Your task to perform on an android device: Search for macbook pro 15 inch on ebay, select the first entry, and add it to the cart. Image 0: 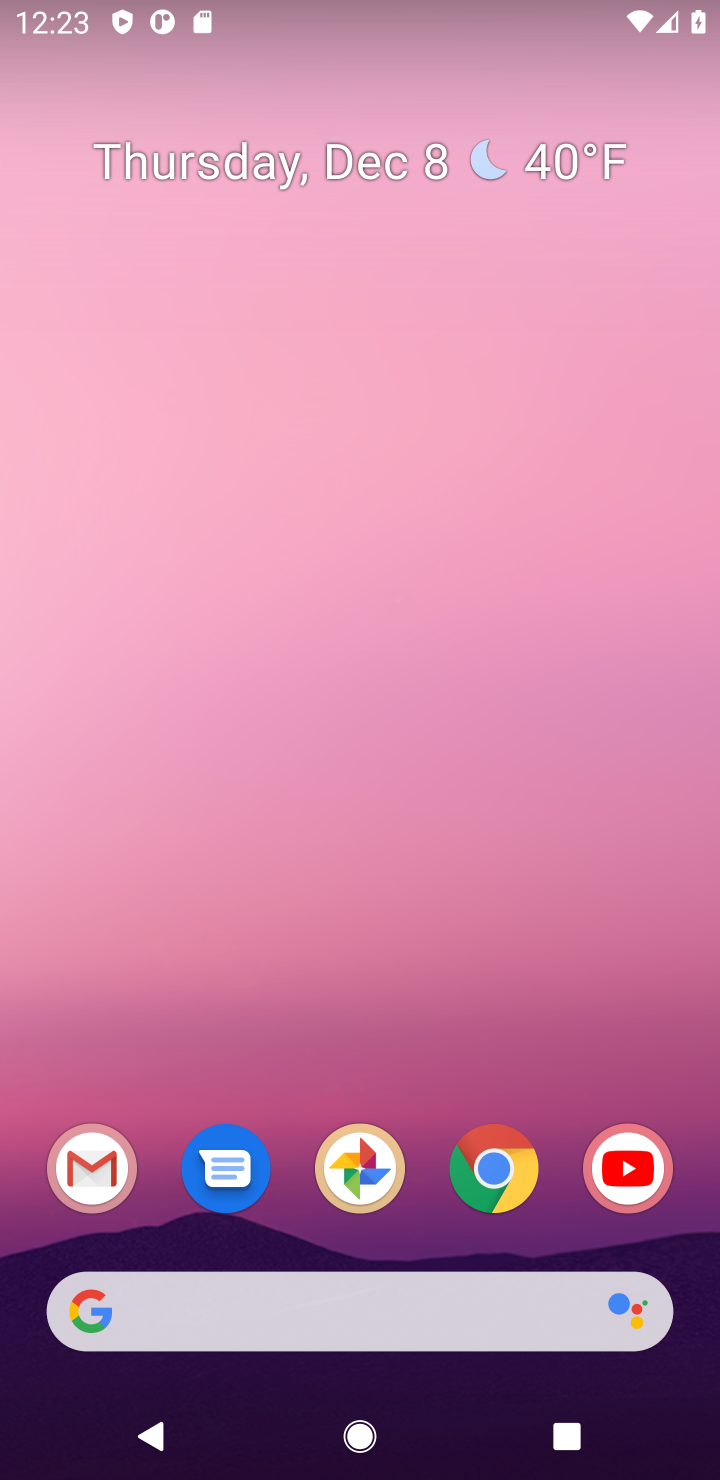
Step 0: drag from (362, 1080) to (372, 141)
Your task to perform on an android device: Search for macbook pro 15 inch on ebay, select the first entry, and add it to the cart. Image 1: 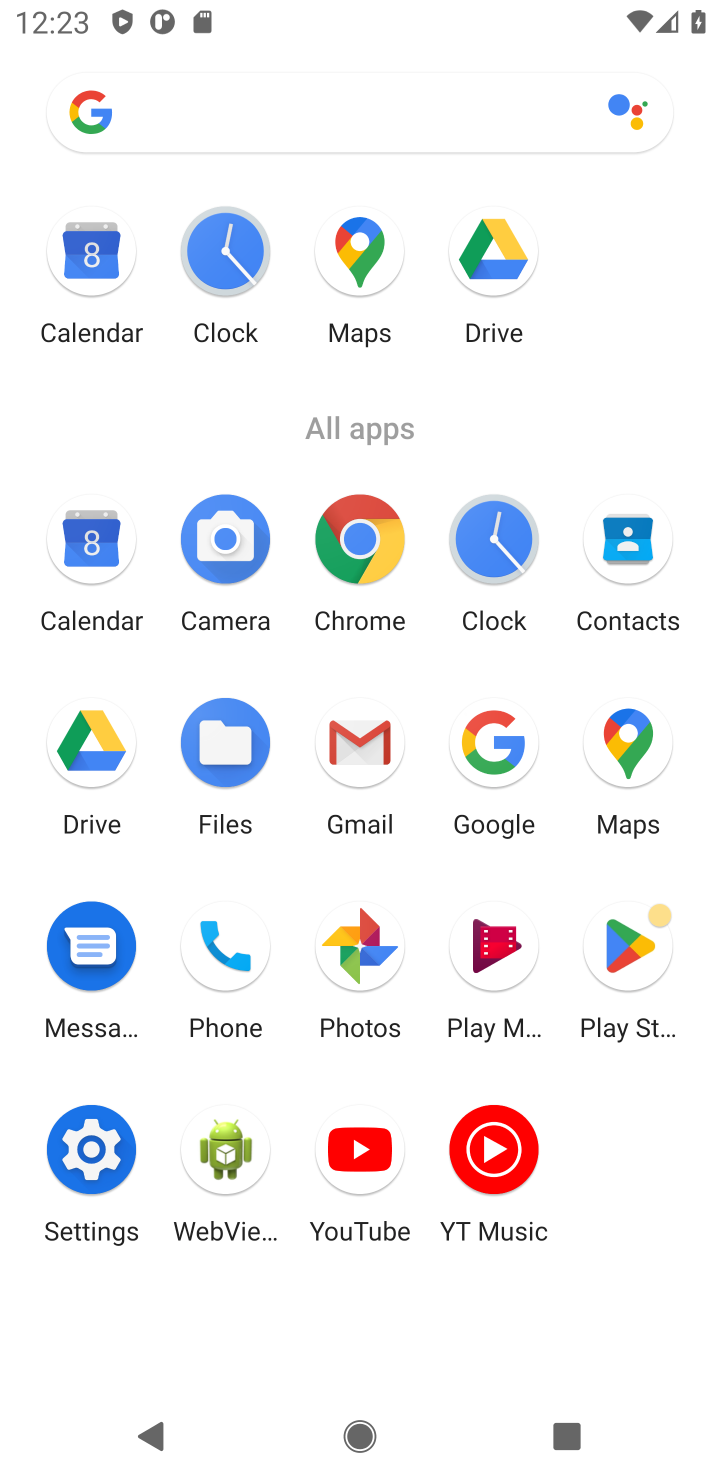
Step 1: click (508, 745)
Your task to perform on an android device: Search for macbook pro 15 inch on ebay, select the first entry, and add it to the cart. Image 2: 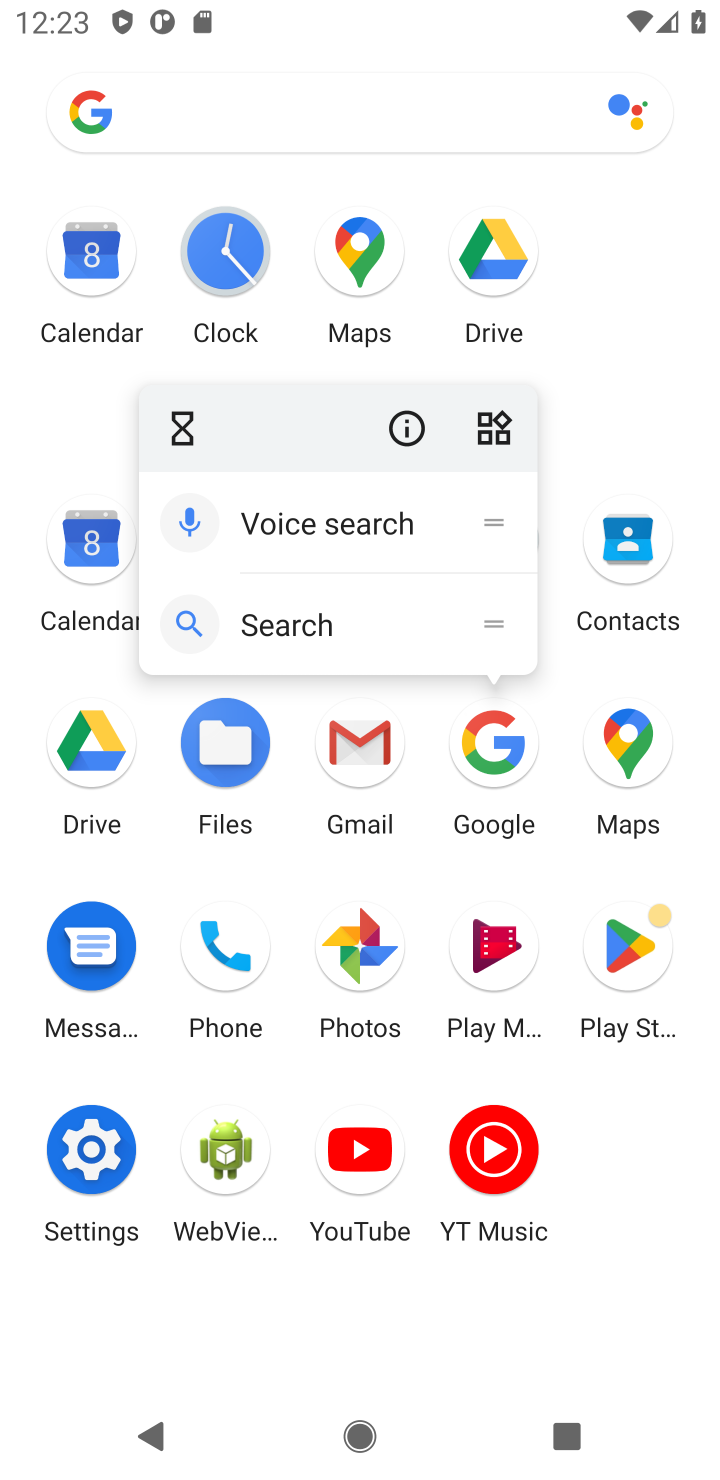
Step 2: click (501, 750)
Your task to perform on an android device: Search for macbook pro 15 inch on ebay, select the first entry, and add it to the cart. Image 3: 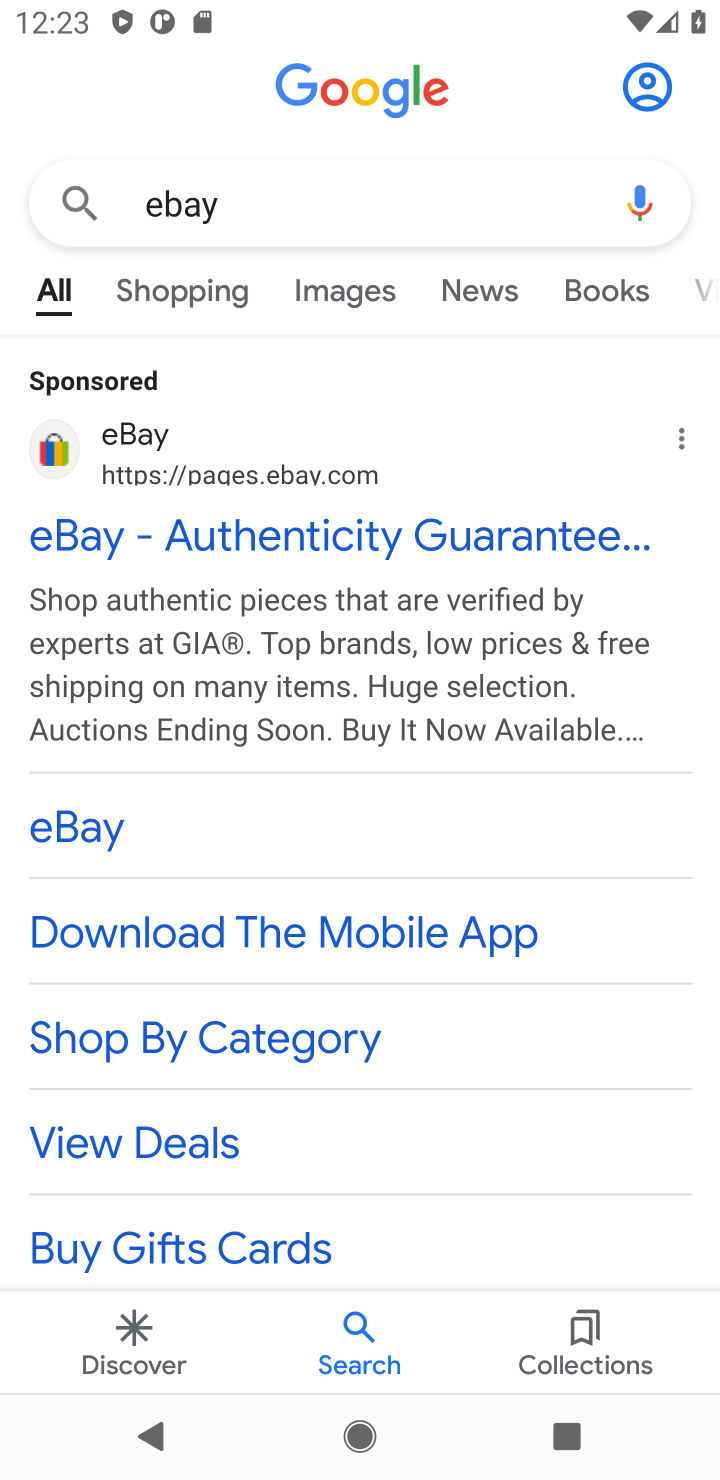
Step 3: click (202, 214)
Your task to perform on an android device: Search for macbook pro 15 inch on ebay, select the first entry, and add it to the cart. Image 4: 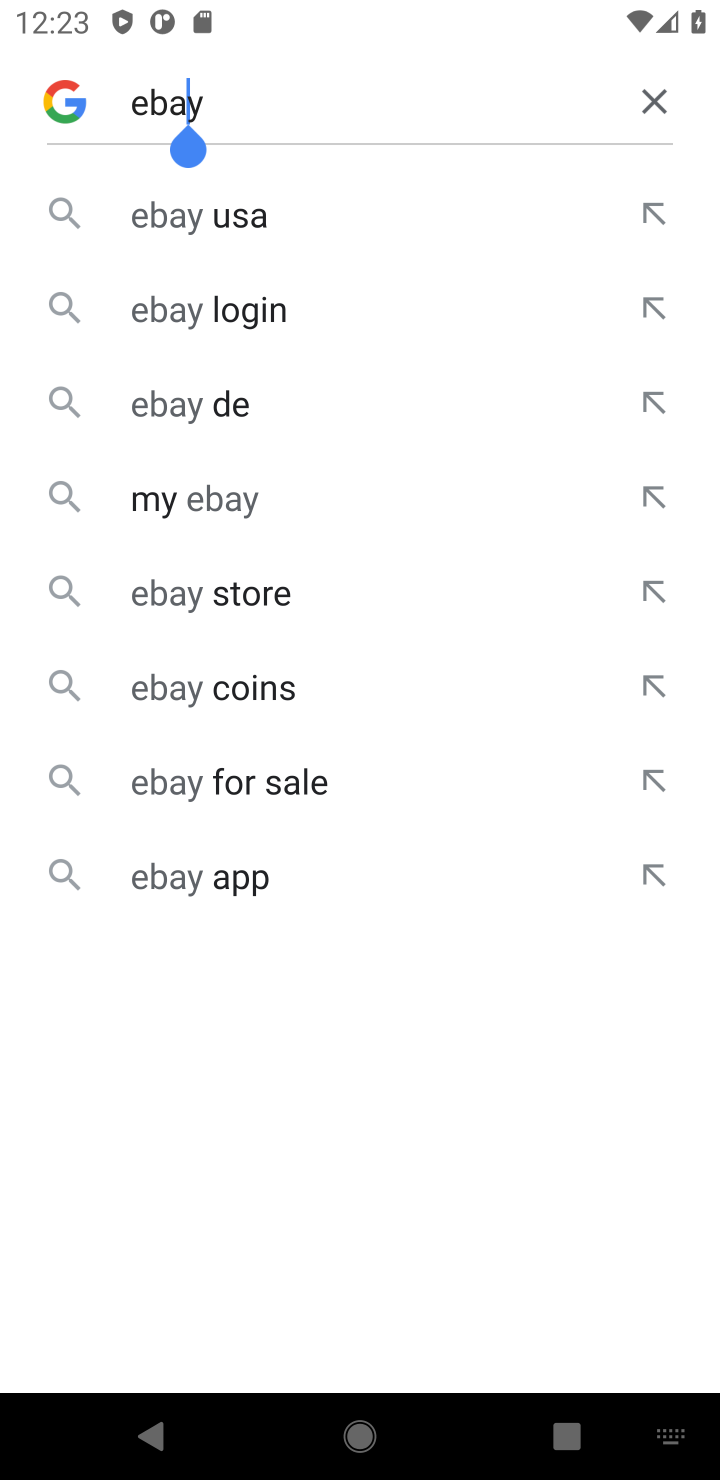
Step 4: click (657, 96)
Your task to perform on an android device: Search for macbook pro 15 inch on ebay, select the first entry, and add it to the cart. Image 5: 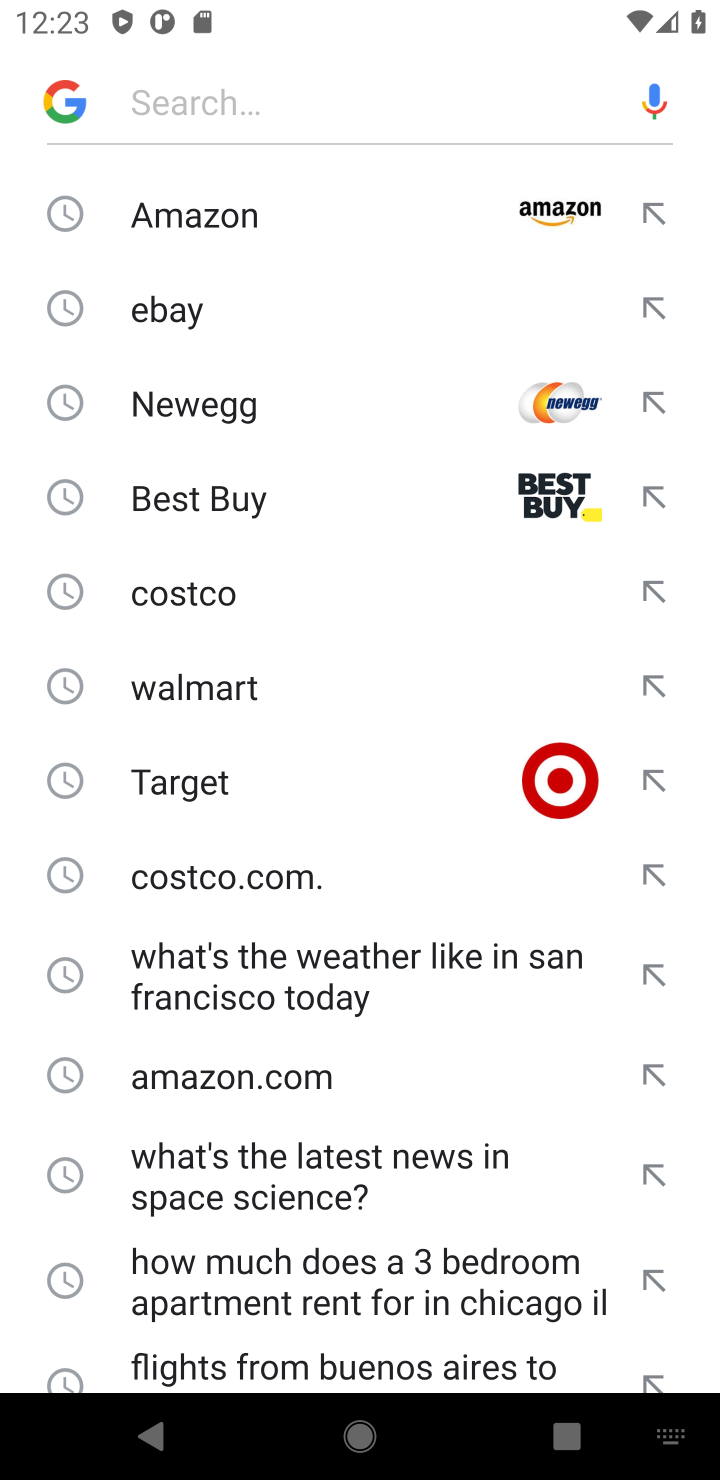
Step 5: click (183, 316)
Your task to perform on an android device: Search for macbook pro 15 inch on ebay, select the first entry, and add it to the cart. Image 6: 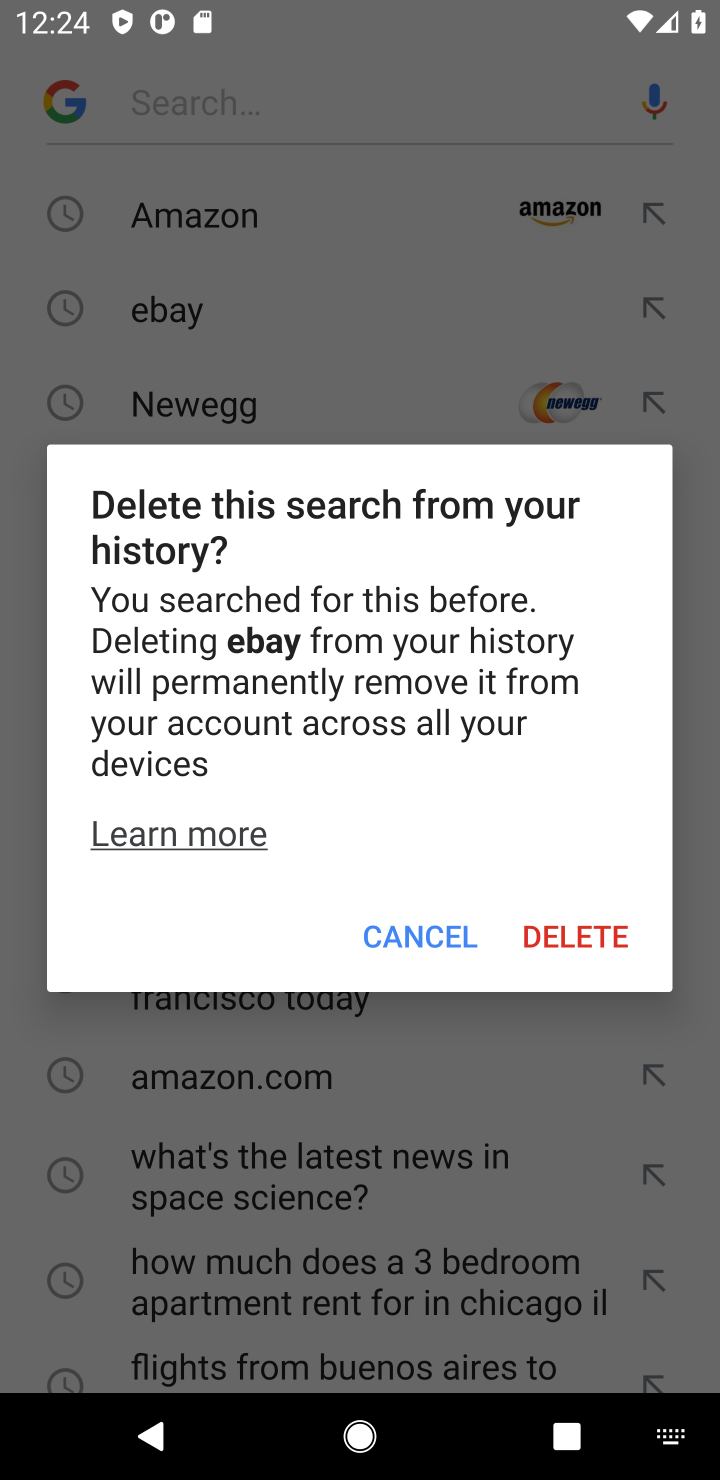
Step 6: click (434, 933)
Your task to perform on an android device: Search for macbook pro 15 inch on ebay, select the first entry, and add it to the cart. Image 7: 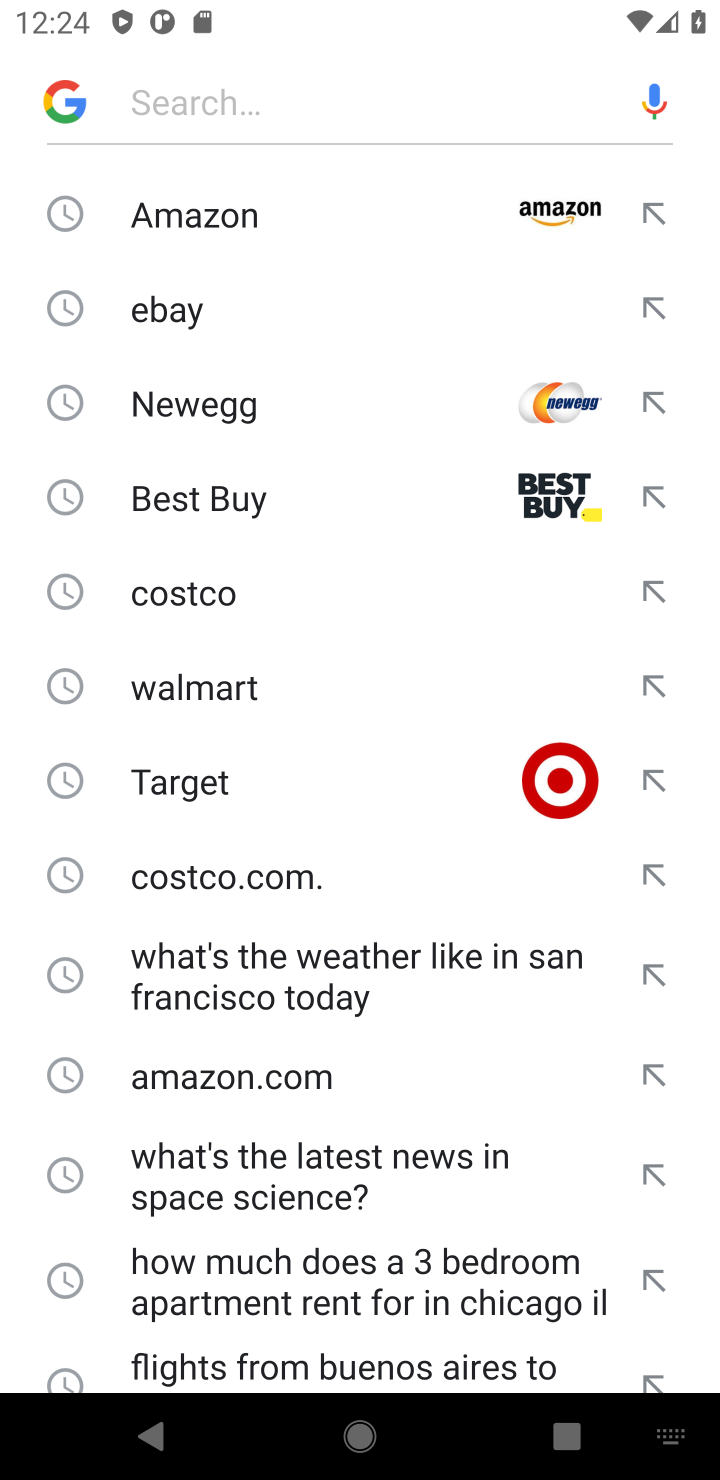
Step 7: click (651, 305)
Your task to perform on an android device: Search for macbook pro 15 inch on ebay, select the first entry, and add it to the cart. Image 8: 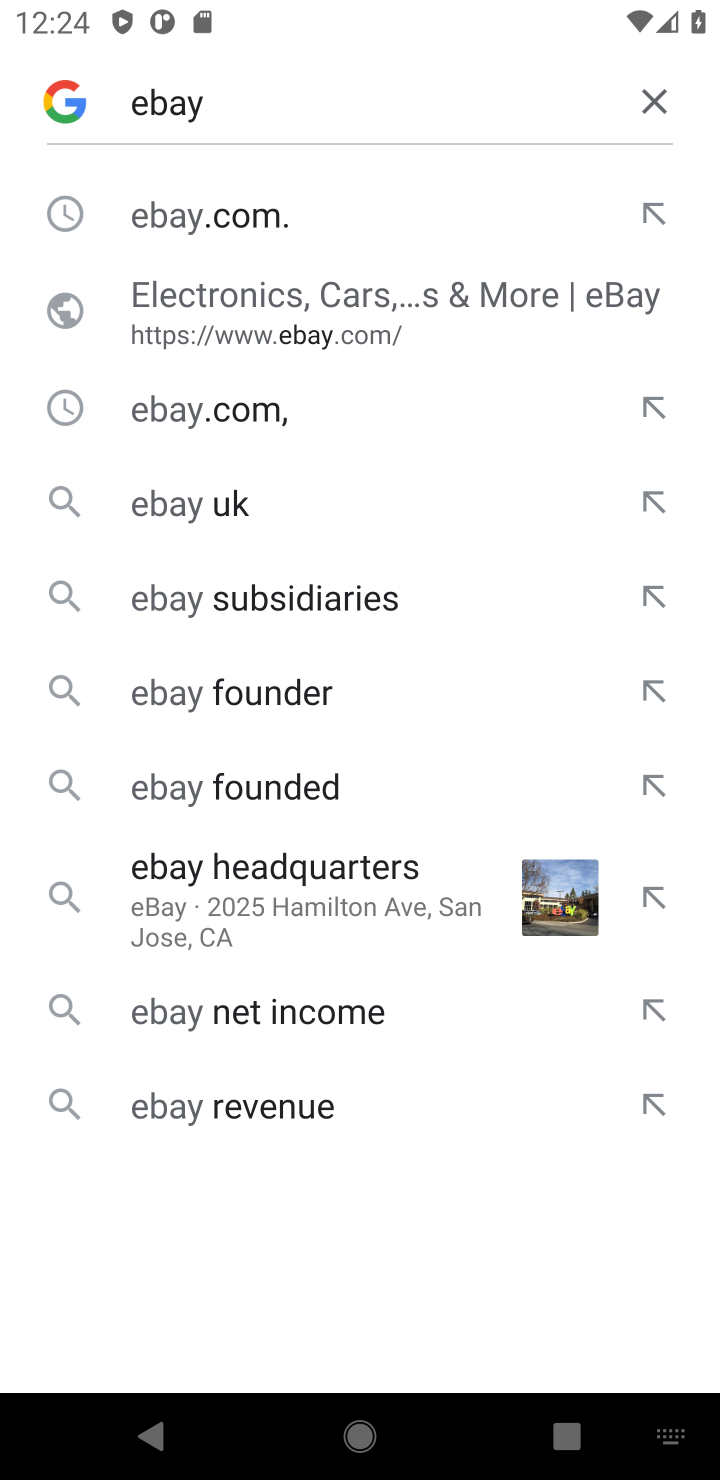
Step 8: click (201, 204)
Your task to perform on an android device: Search for macbook pro 15 inch on ebay, select the first entry, and add it to the cart. Image 9: 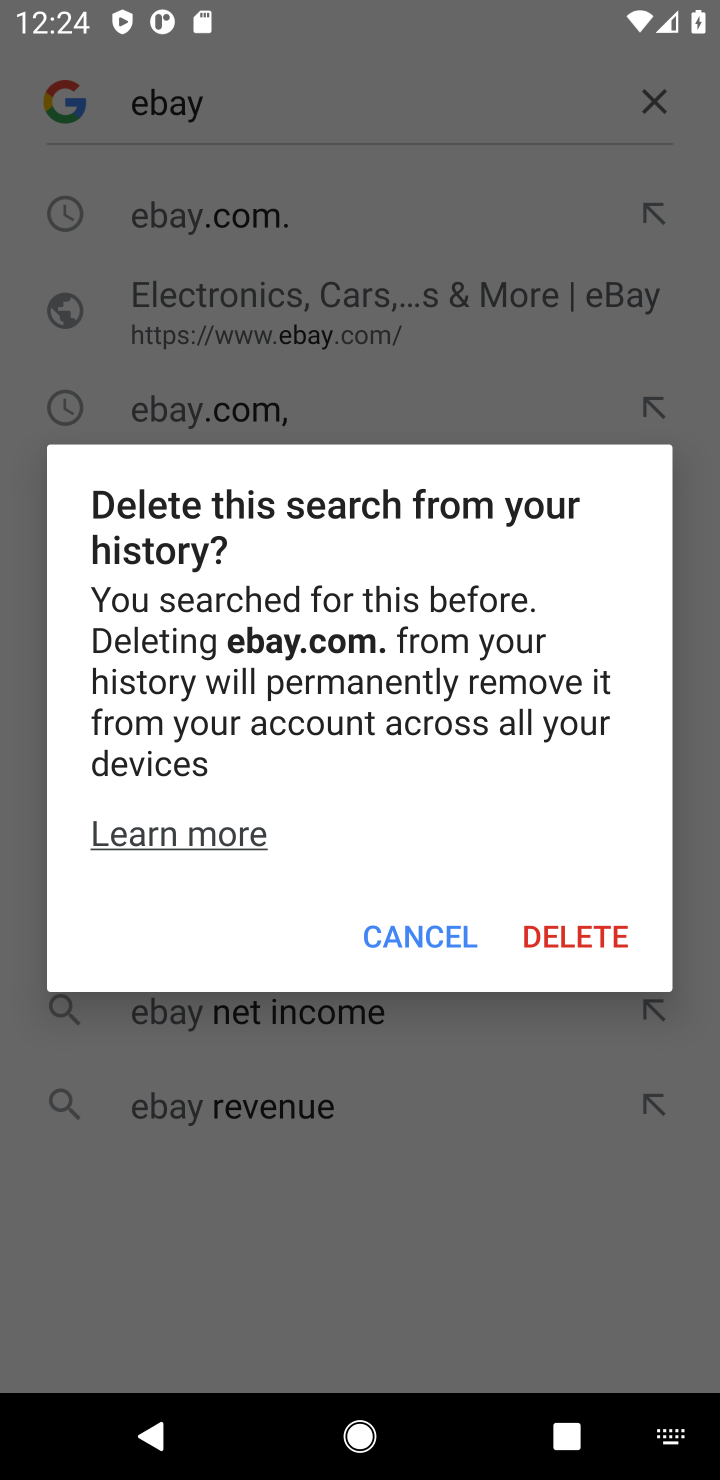
Step 9: click (415, 950)
Your task to perform on an android device: Search for macbook pro 15 inch on ebay, select the first entry, and add it to the cart. Image 10: 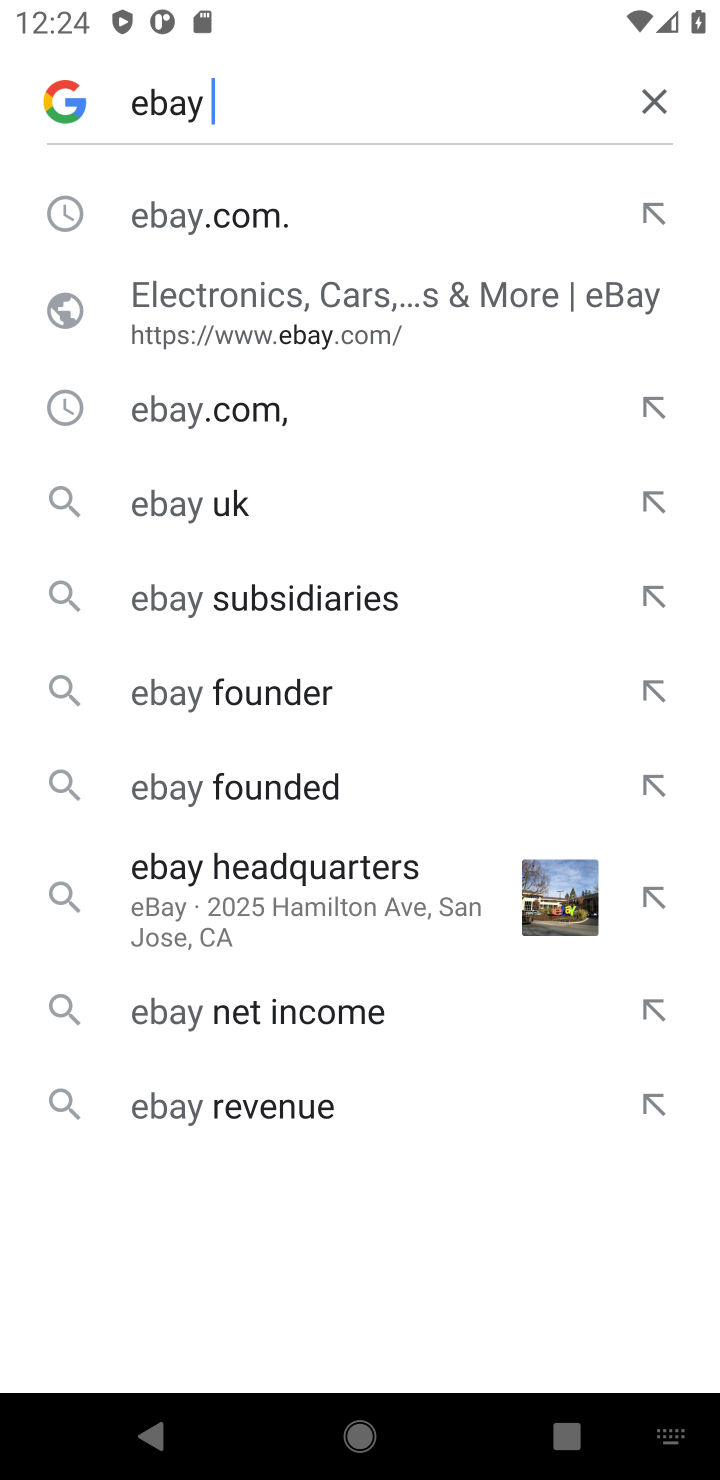
Step 10: click (225, 228)
Your task to perform on an android device: Search for macbook pro 15 inch on ebay, select the first entry, and add it to the cart. Image 11: 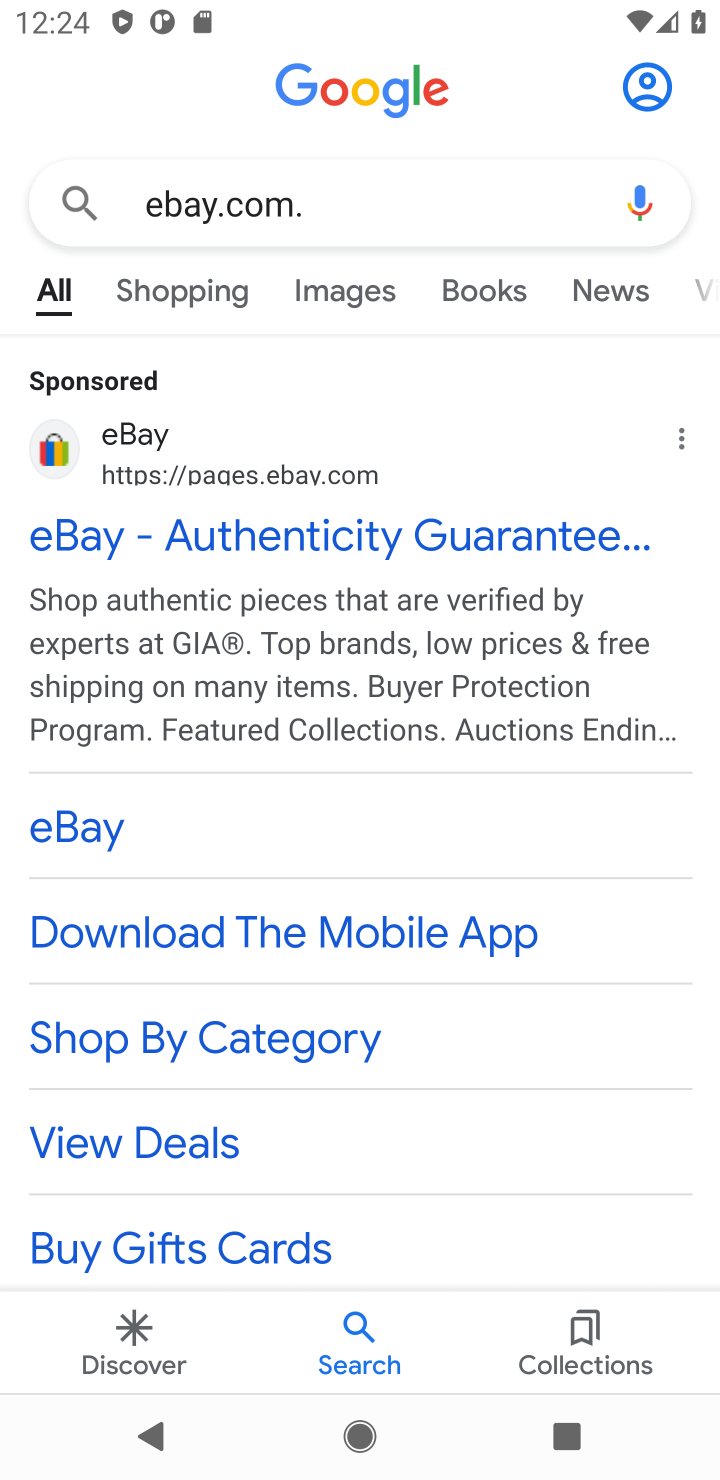
Step 11: click (357, 531)
Your task to perform on an android device: Search for macbook pro 15 inch on ebay, select the first entry, and add it to the cart. Image 12: 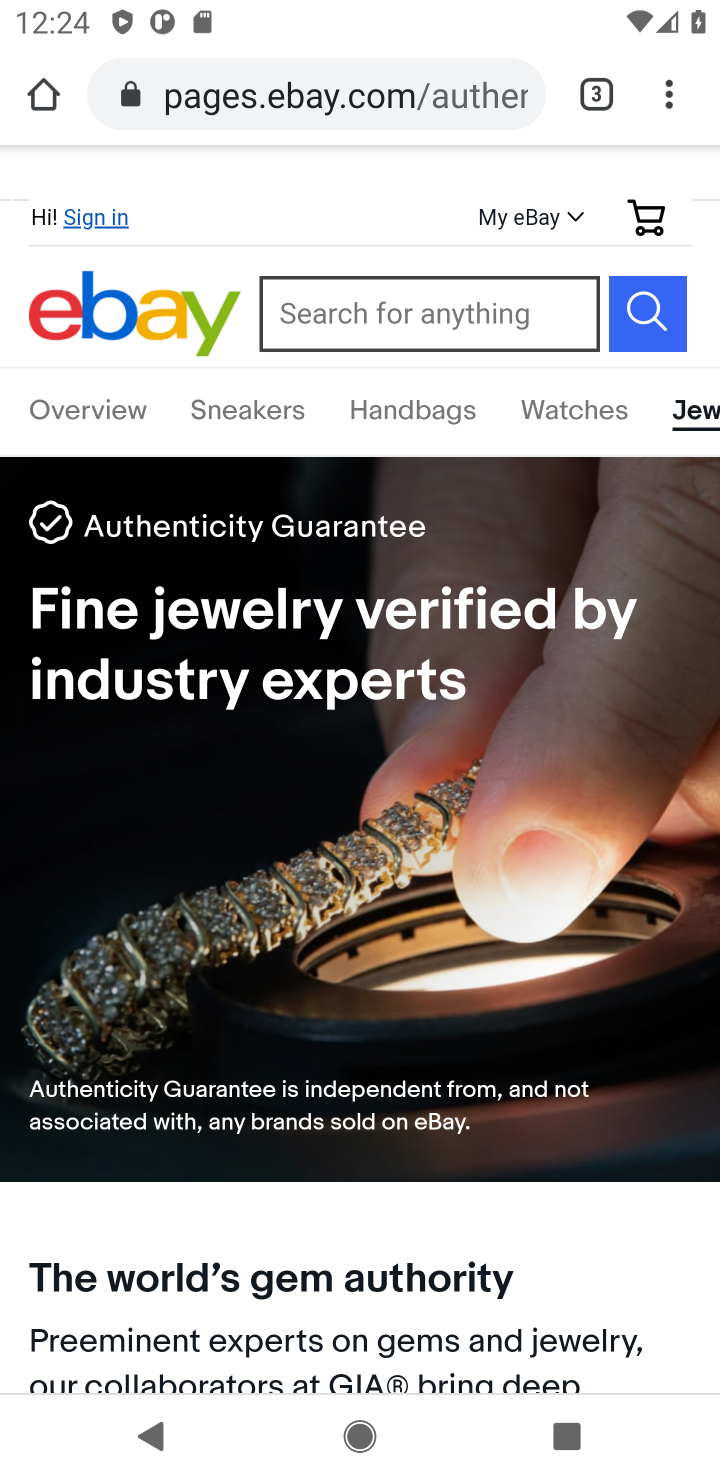
Step 12: click (280, 313)
Your task to perform on an android device: Search for macbook pro 15 inch on ebay, select the first entry, and add it to the cart. Image 13: 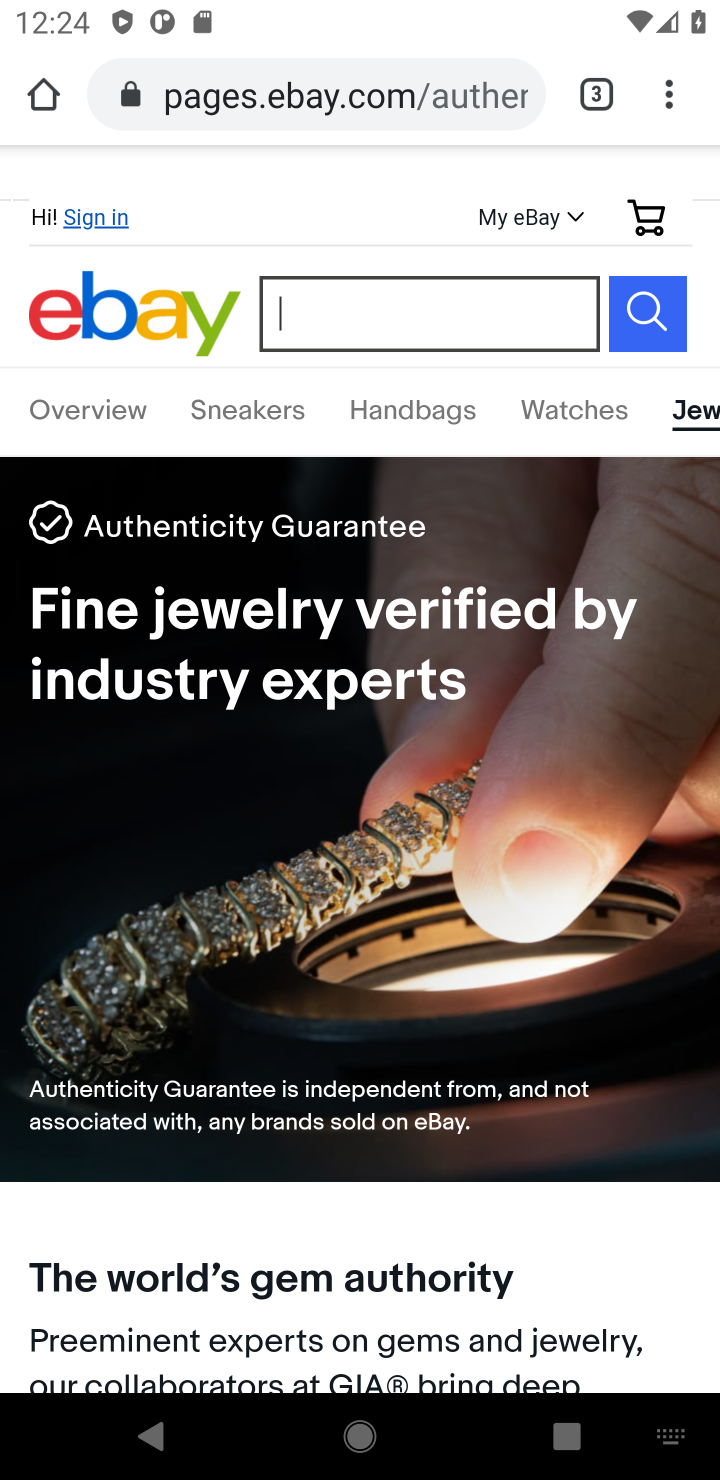
Step 13: type "macbook pro 15"
Your task to perform on an android device: Search for macbook pro 15 inch on ebay, select the first entry, and add it to the cart. Image 14: 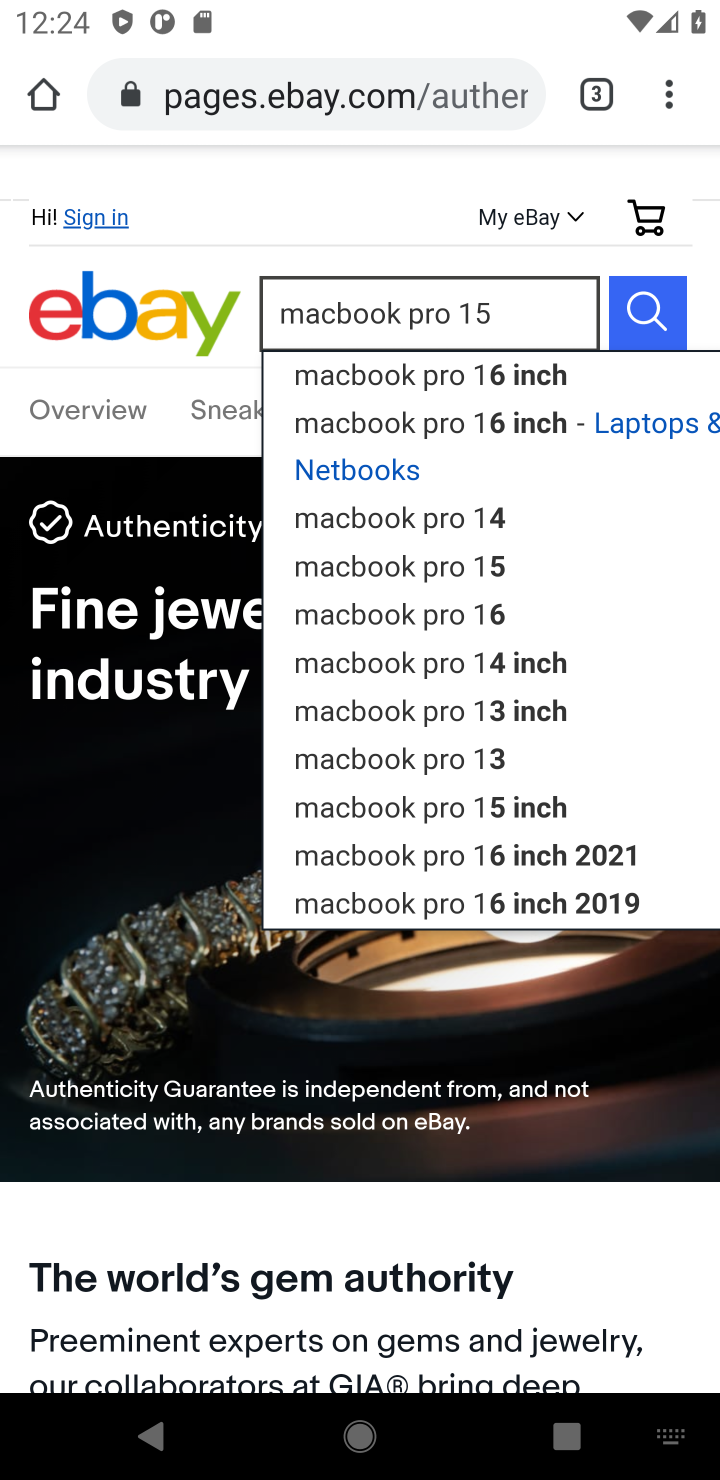
Step 14: click (389, 562)
Your task to perform on an android device: Search for macbook pro 15 inch on ebay, select the first entry, and add it to the cart. Image 15: 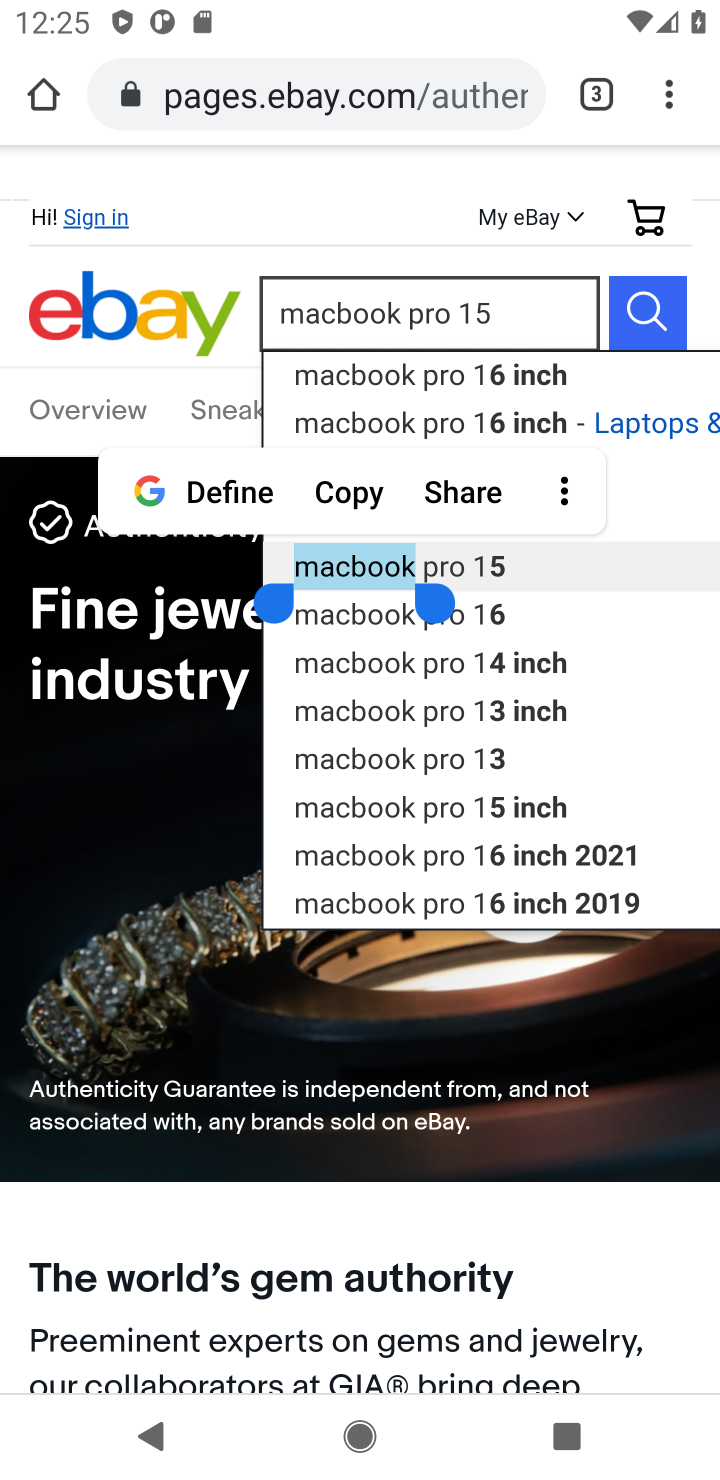
Step 15: click (492, 578)
Your task to perform on an android device: Search for macbook pro 15 inch on ebay, select the first entry, and add it to the cart. Image 16: 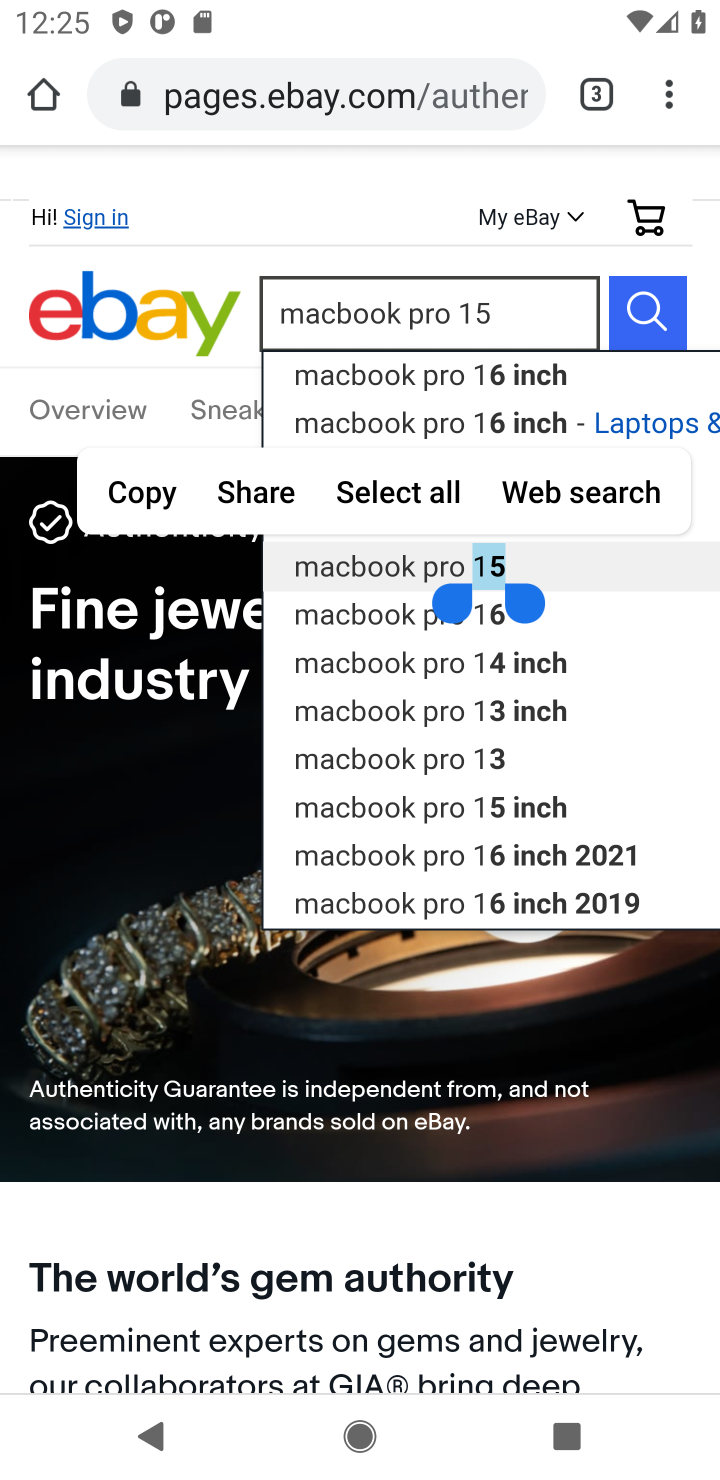
Step 16: click (388, 565)
Your task to perform on an android device: Search for macbook pro 15 inch on ebay, select the first entry, and add it to the cart. Image 17: 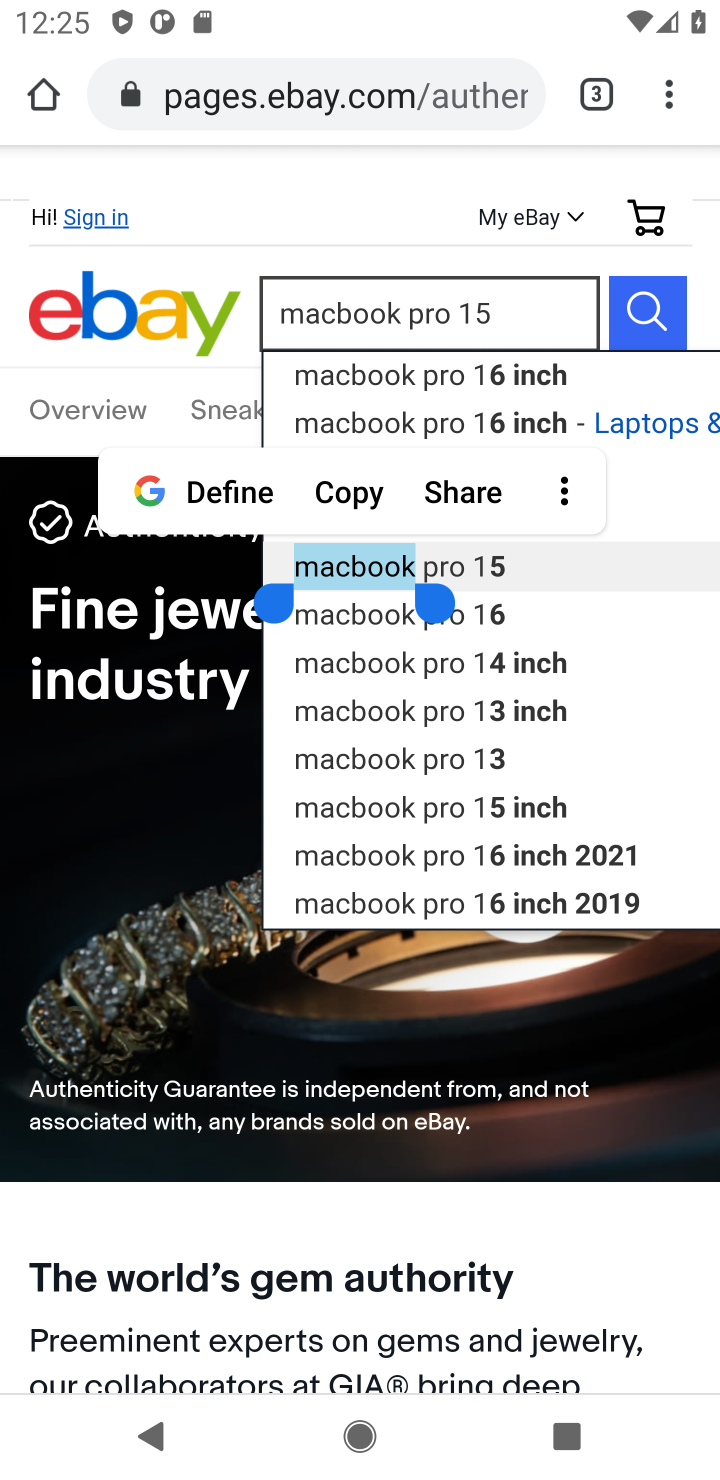
Step 17: click (451, 583)
Your task to perform on an android device: Search for macbook pro 15 inch on ebay, select the first entry, and add it to the cart. Image 18: 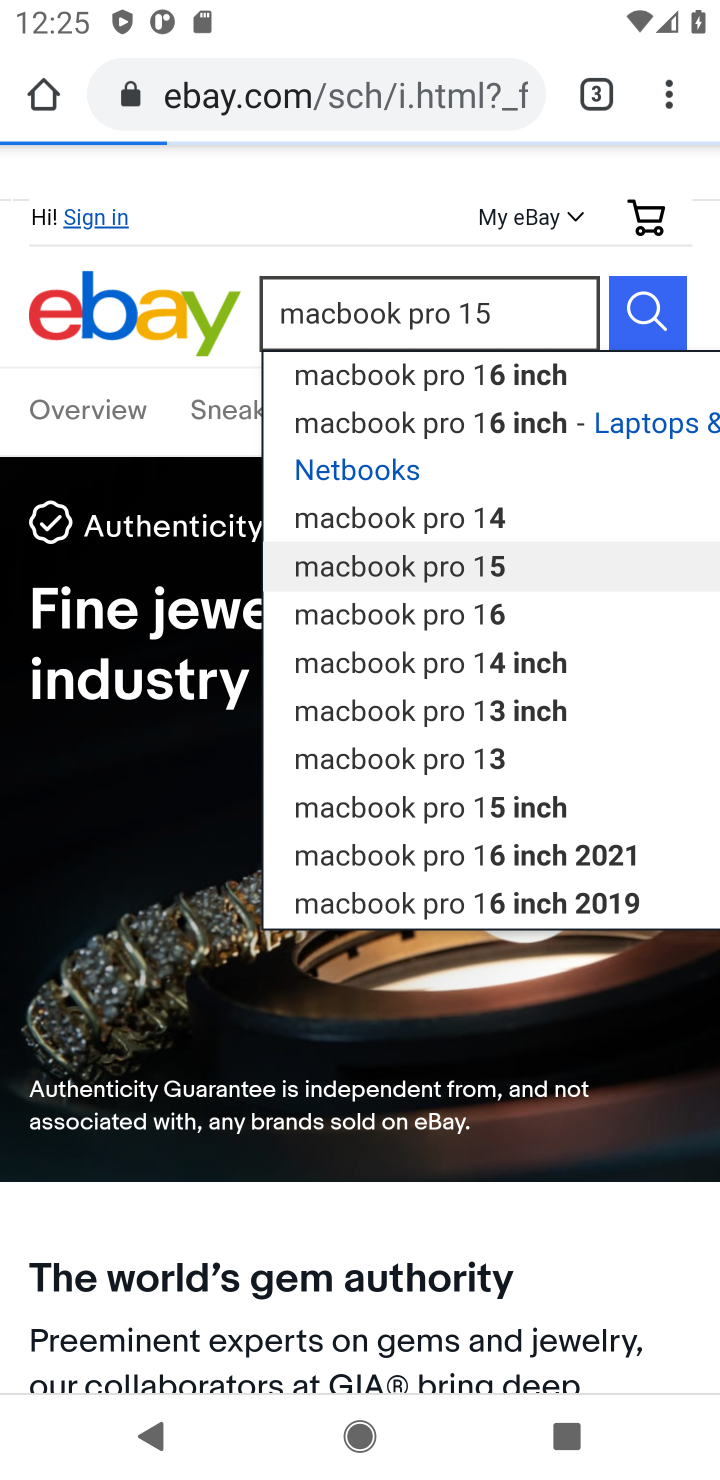
Step 18: click (673, 301)
Your task to perform on an android device: Search for macbook pro 15 inch on ebay, select the first entry, and add it to the cart. Image 19: 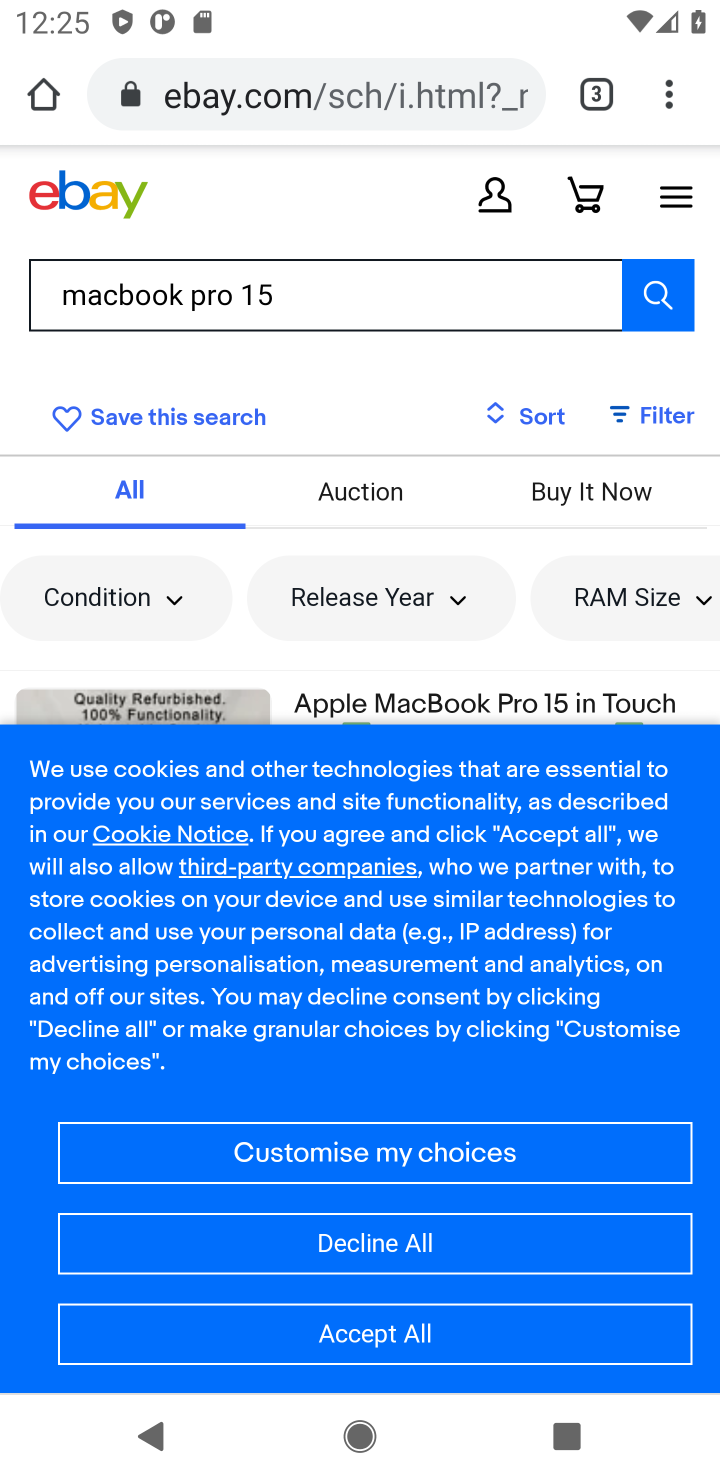
Step 19: click (437, 779)
Your task to perform on an android device: Search for macbook pro 15 inch on ebay, select the first entry, and add it to the cart. Image 20: 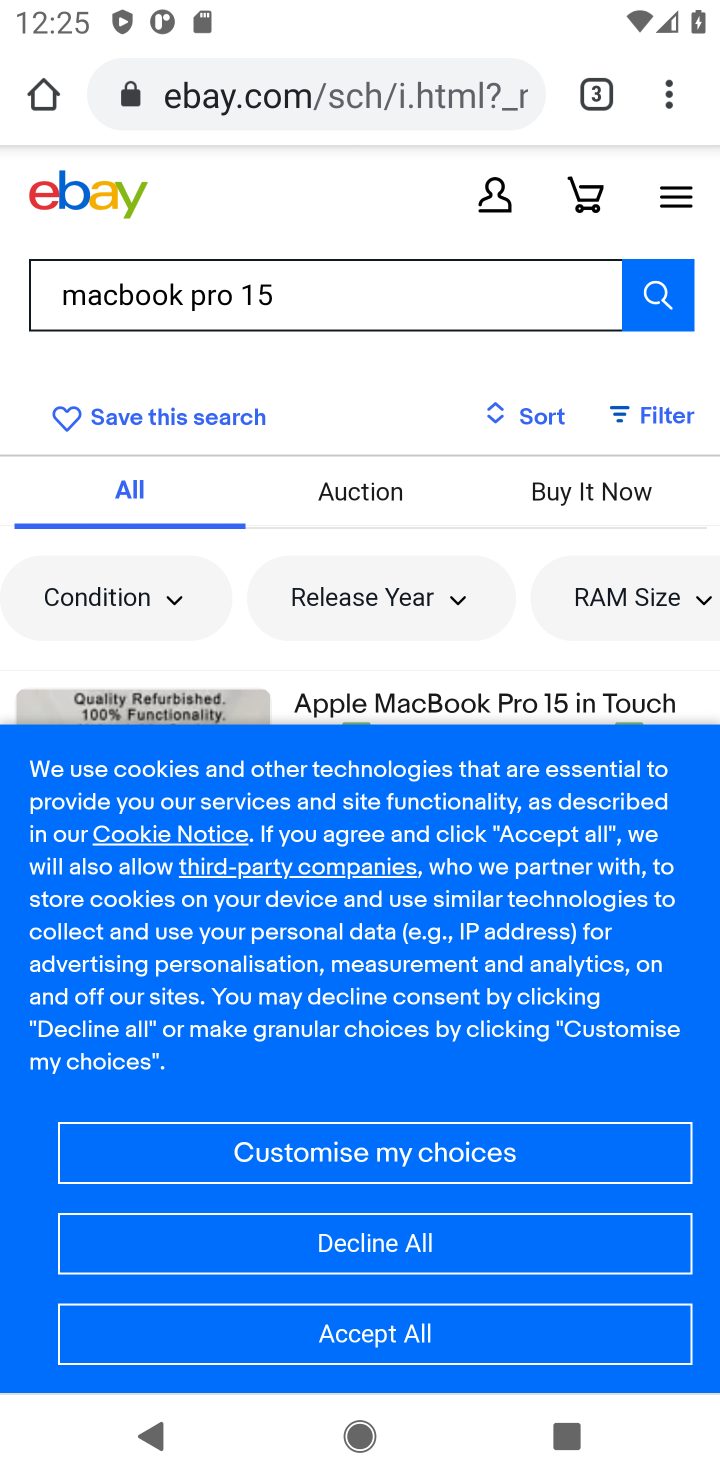
Step 20: click (539, 705)
Your task to perform on an android device: Search for macbook pro 15 inch on ebay, select the first entry, and add it to the cart. Image 21: 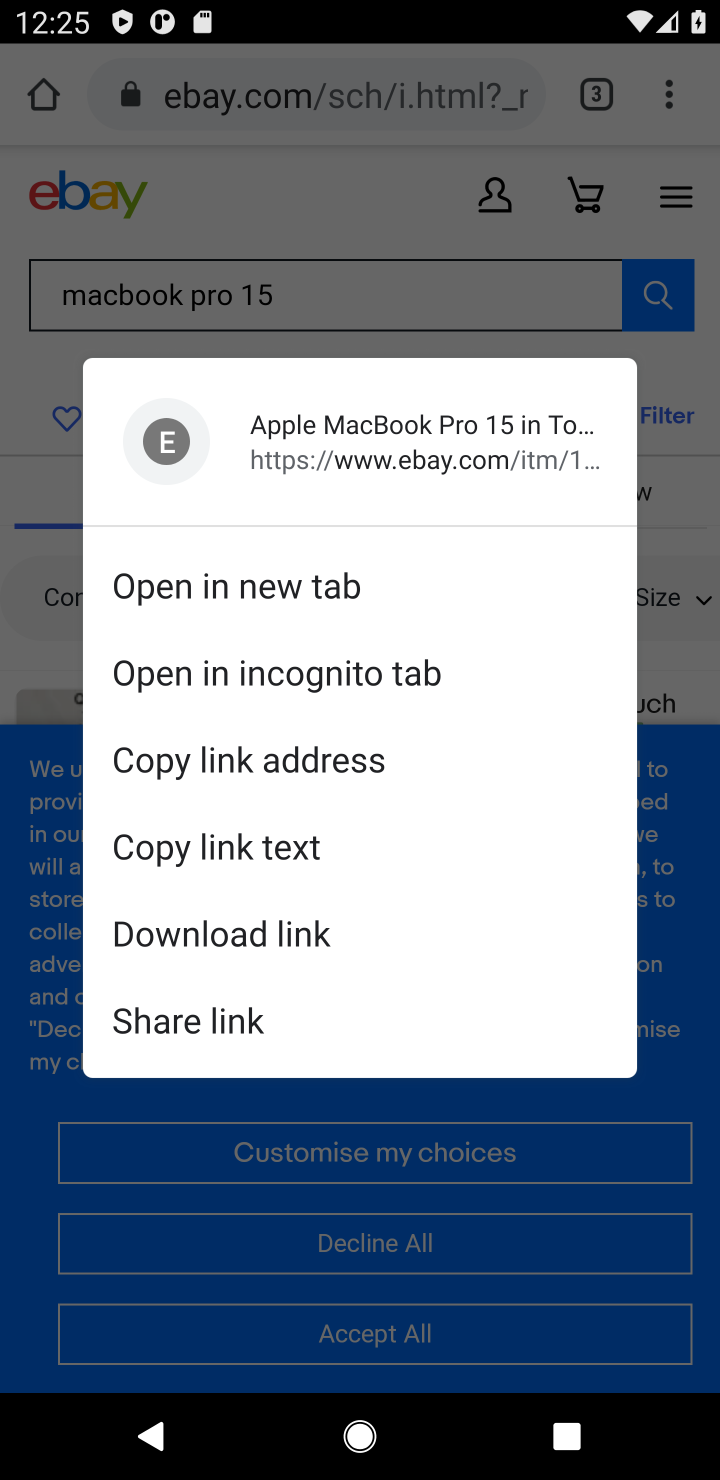
Step 21: click (21, 383)
Your task to perform on an android device: Search for macbook pro 15 inch on ebay, select the first entry, and add it to the cart. Image 22: 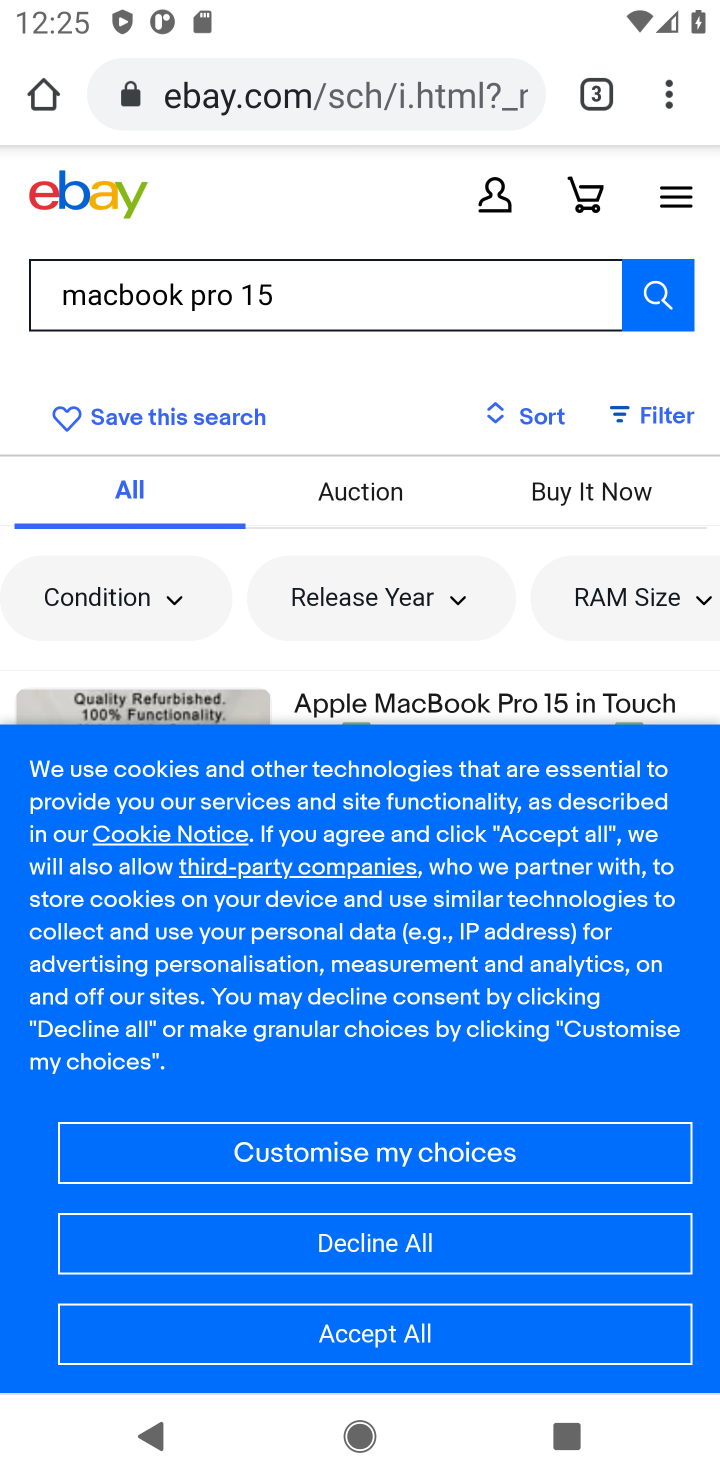
Step 22: click (392, 704)
Your task to perform on an android device: Search for macbook pro 15 inch on ebay, select the first entry, and add it to the cart. Image 23: 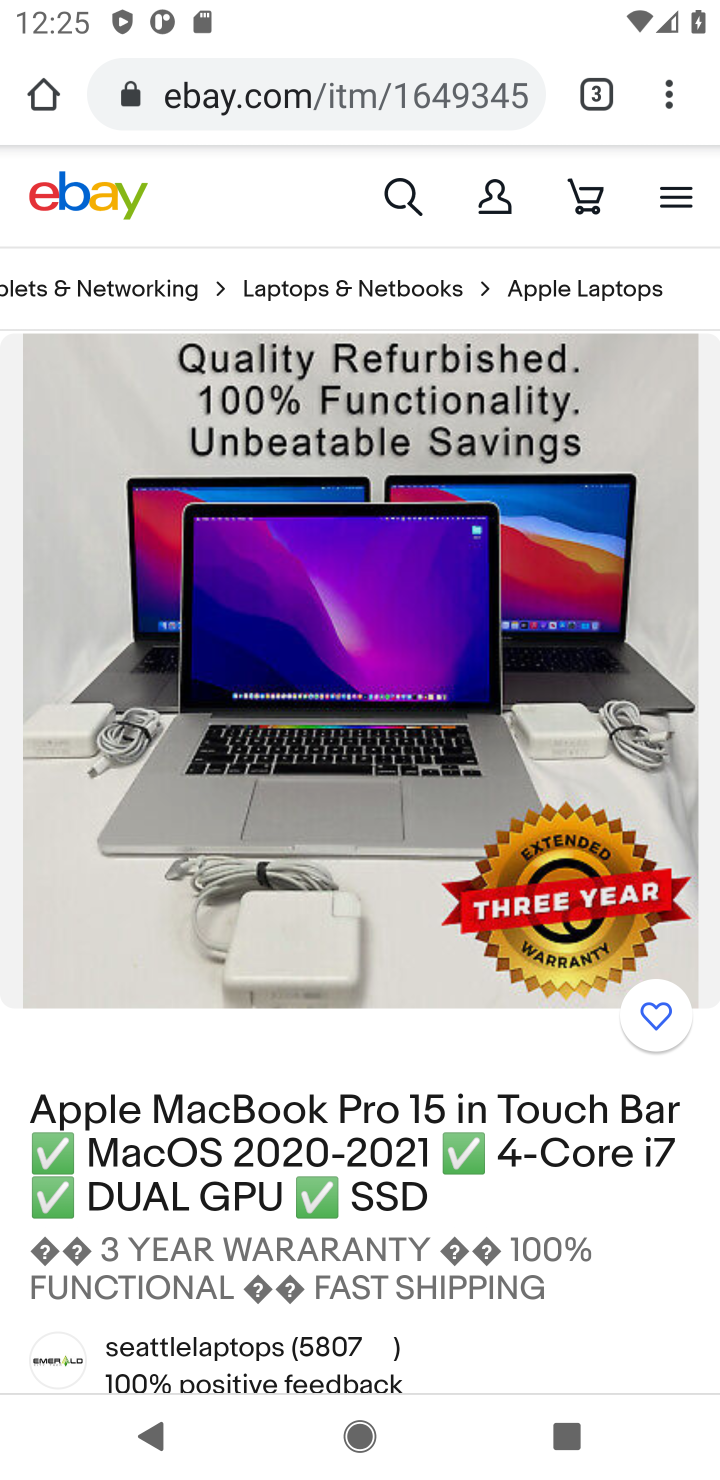
Step 23: drag from (465, 682) to (470, 482)
Your task to perform on an android device: Search for macbook pro 15 inch on ebay, select the first entry, and add it to the cart. Image 24: 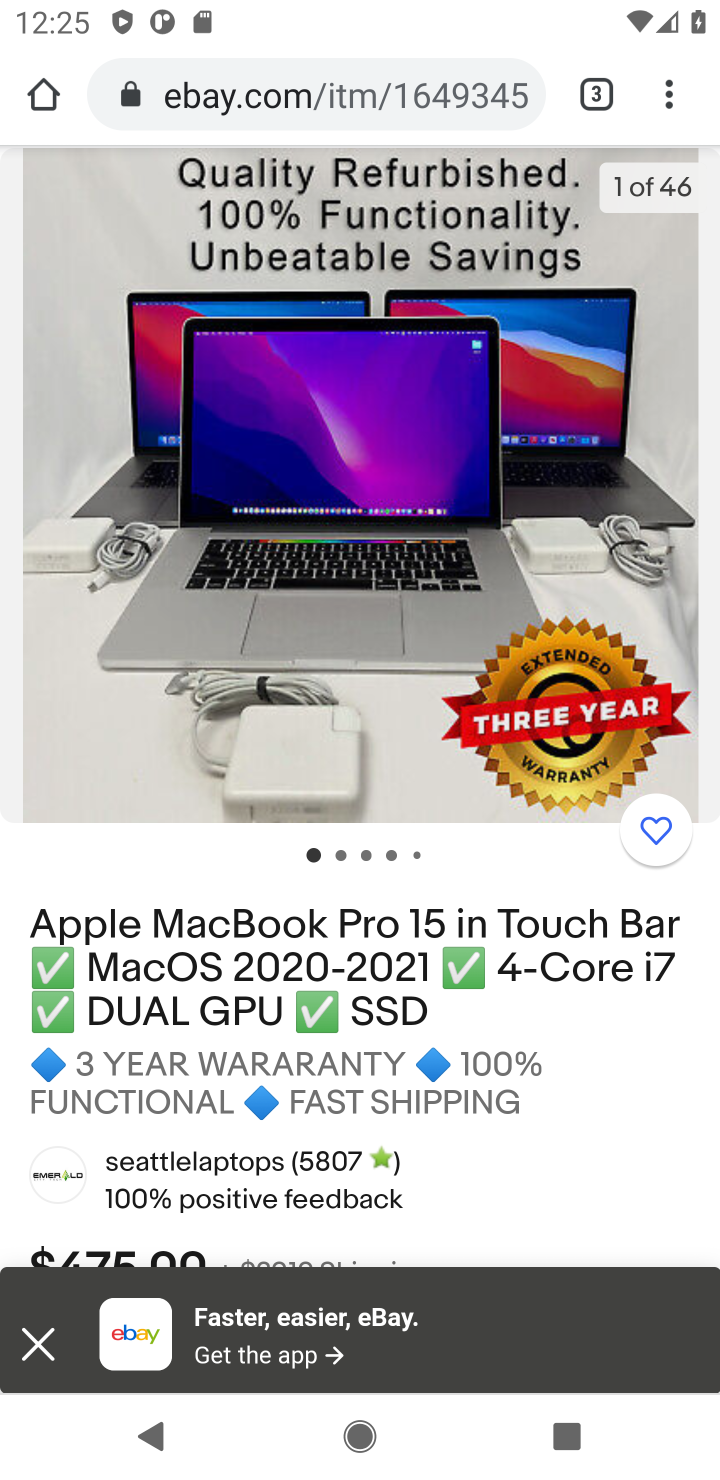
Step 24: click (455, 421)
Your task to perform on an android device: Search for macbook pro 15 inch on ebay, select the first entry, and add it to the cart. Image 25: 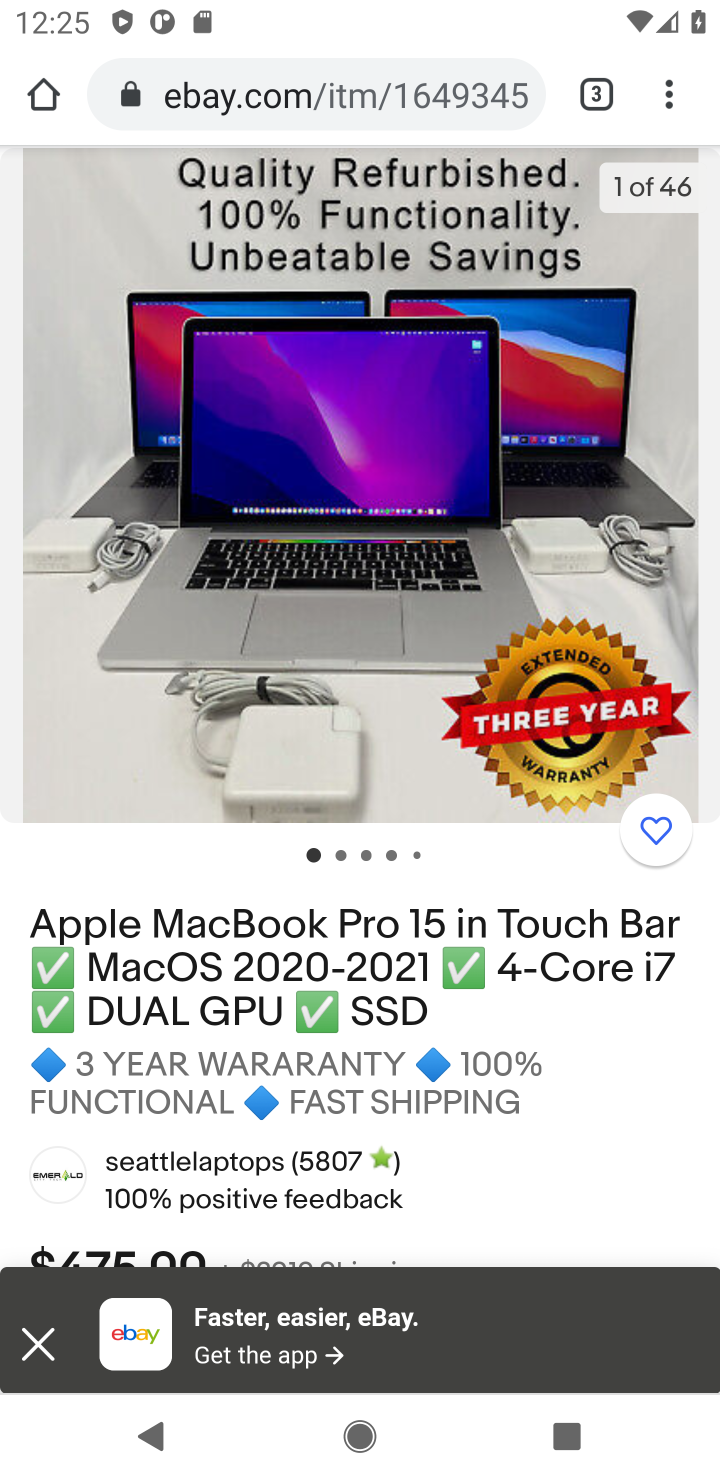
Step 25: drag from (468, 831) to (468, 537)
Your task to perform on an android device: Search for macbook pro 15 inch on ebay, select the first entry, and add it to the cart. Image 26: 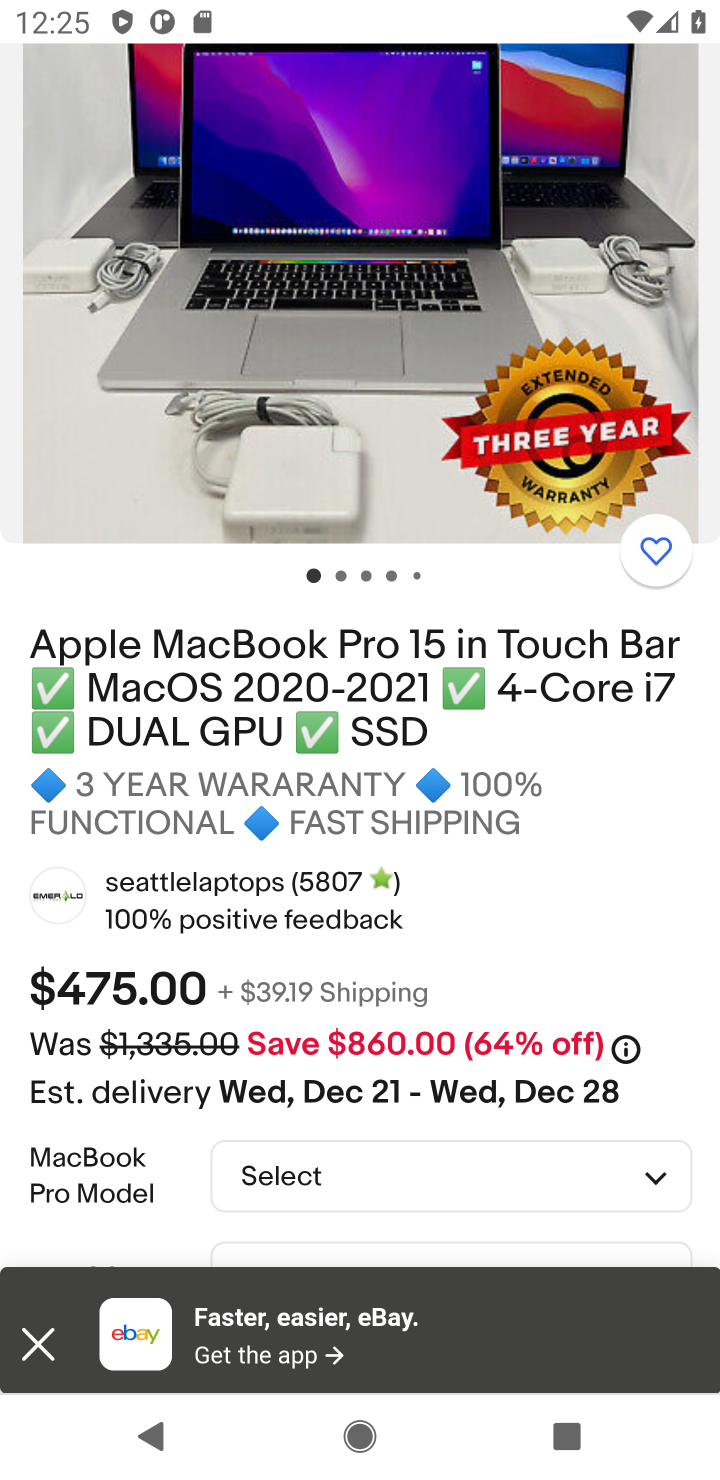
Step 26: drag from (412, 813) to (418, 502)
Your task to perform on an android device: Search for macbook pro 15 inch on ebay, select the first entry, and add it to the cart. Image 27: 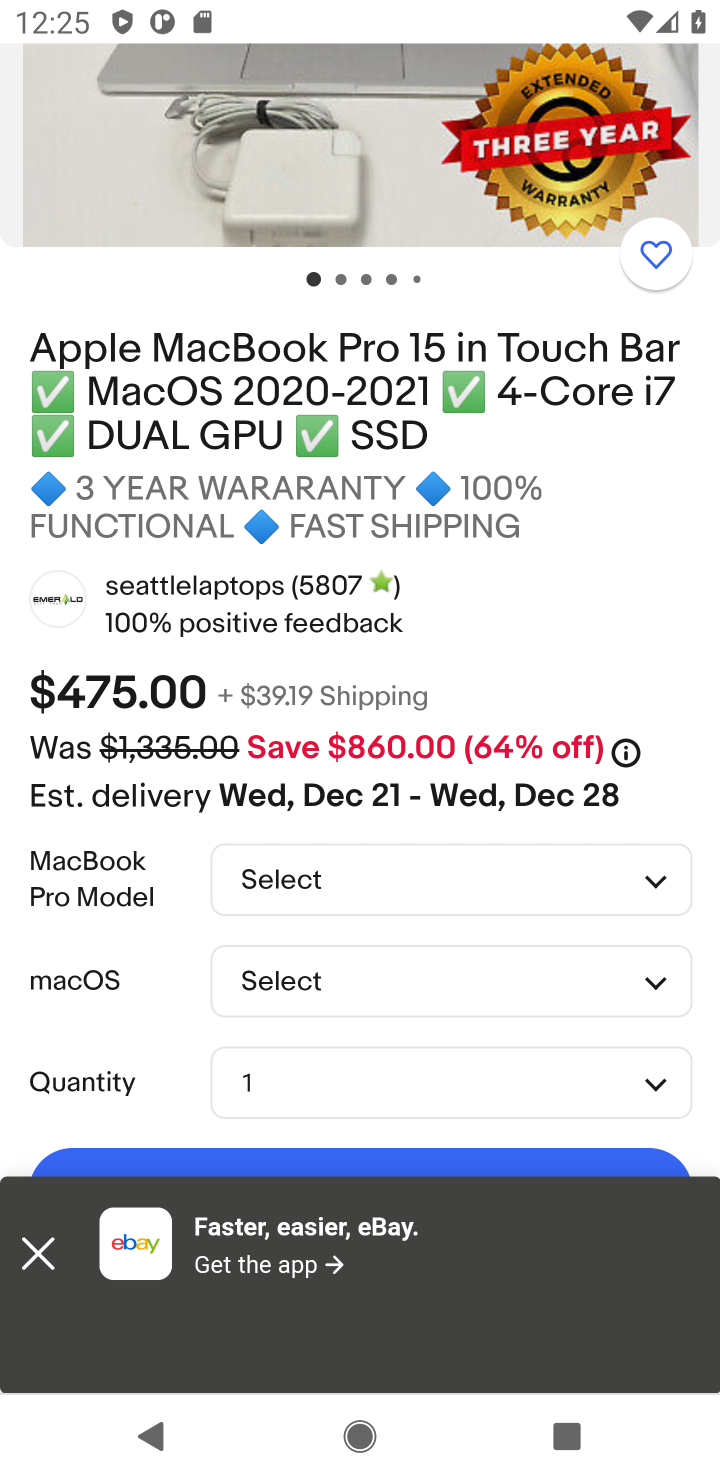
Step 27: drag from (460, 953) to (466, 628)
Your task to perform on an android device: Search for macbook pro 15 inch on ebay, select the first entry, and add it to the cart. Image 28: 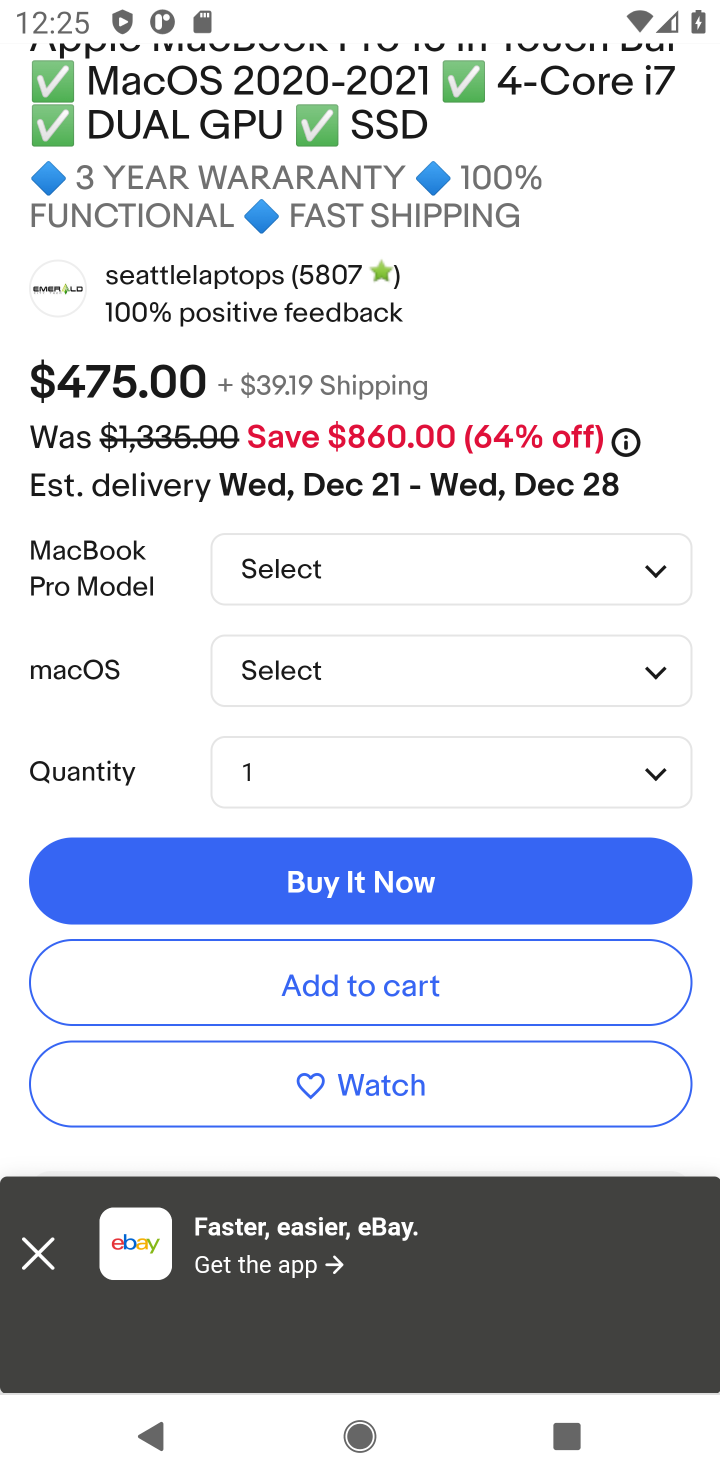
Step 28: click (470, 979)
Your task to perform on an android device: Search for macbook pro 15 inch on ebay, select the first entry, and add it to the cart. Image 29: 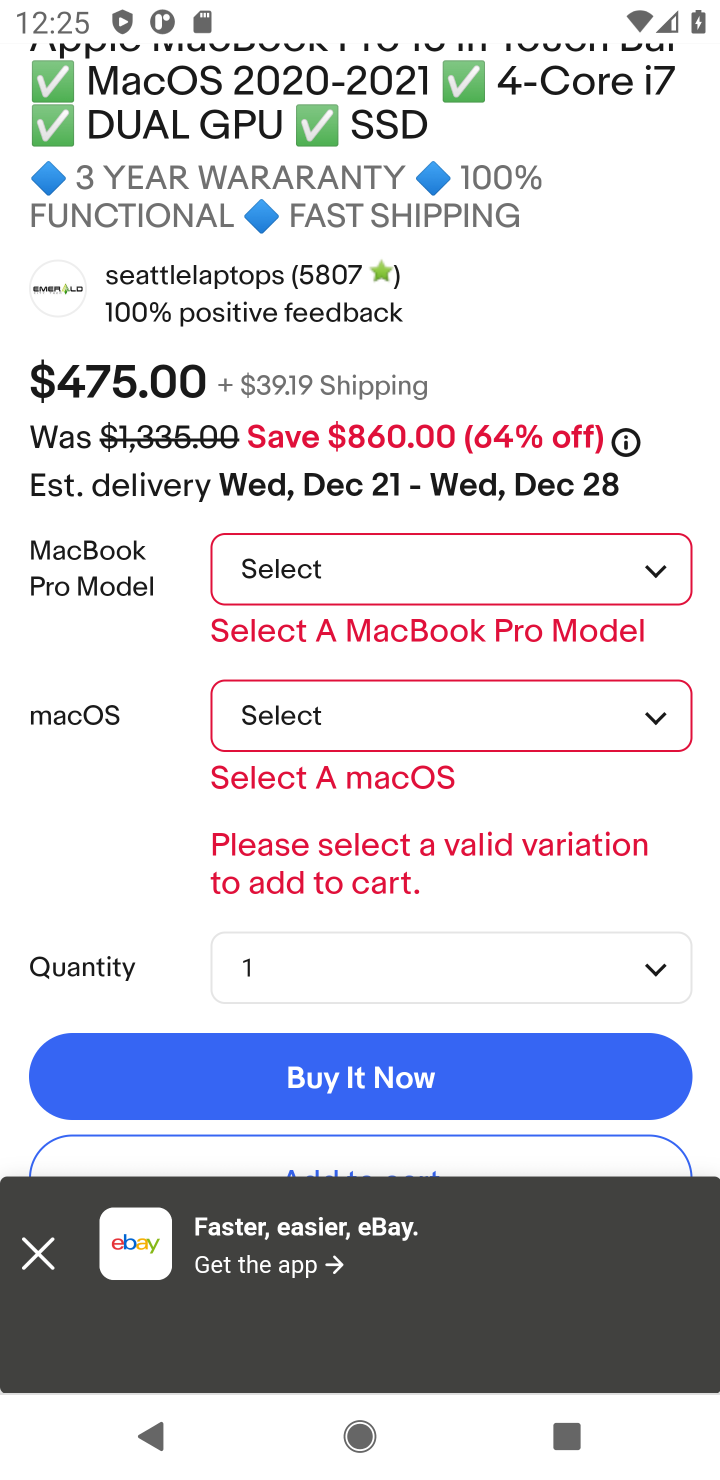
Step 29: click (652, 713)
Your task to perform on an android device: Search for macbook pro 15 inch on ebay, select the first entry, and add it to the cart. Image 30: 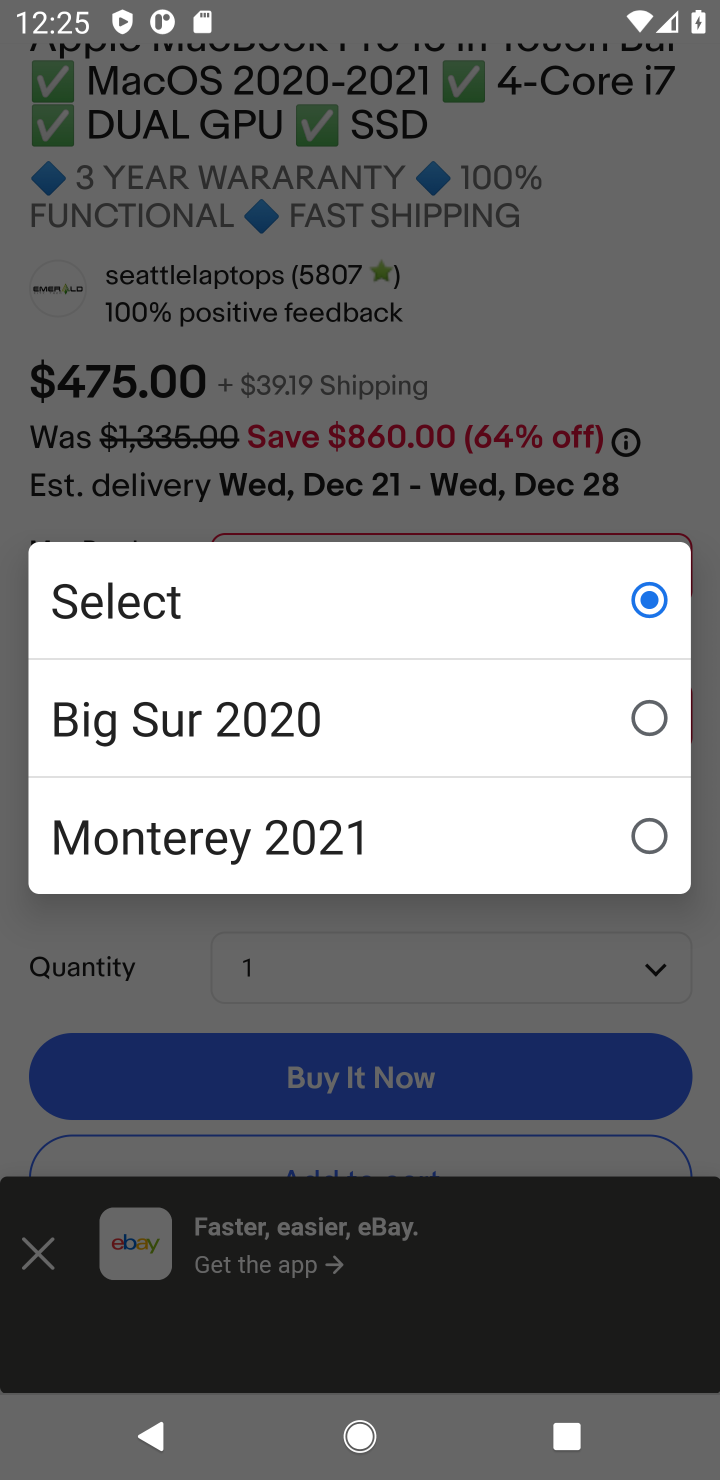
Step 30: click (652, 836)
Your task to perform on an android device: Search for macbook pro 15 inch on ebay, select the first entry, and add it to the cart. Image 31: 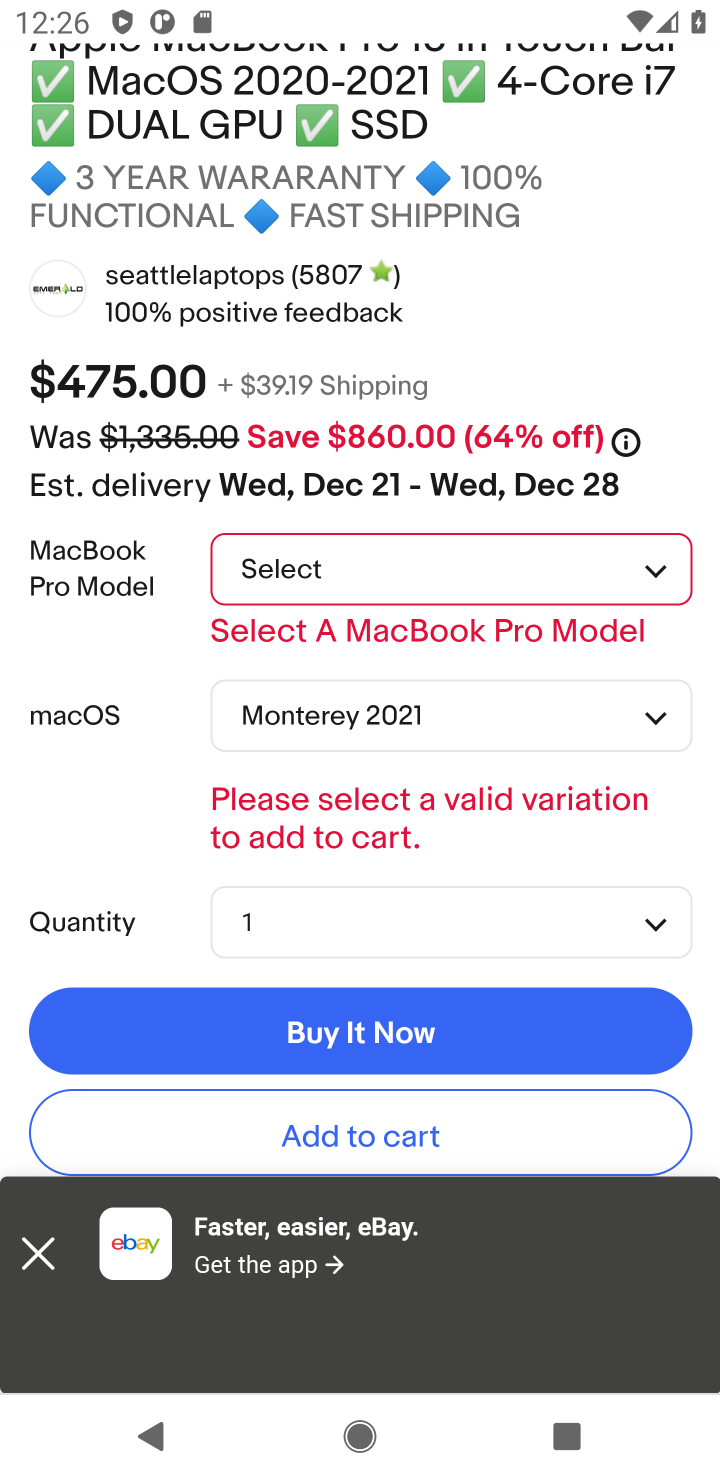
Step 31: click (645, 575)
Your task to perform on an android device: Search for macbook pro 15 inch on ebay, select the first entry, and add it to the cart. Image 32: 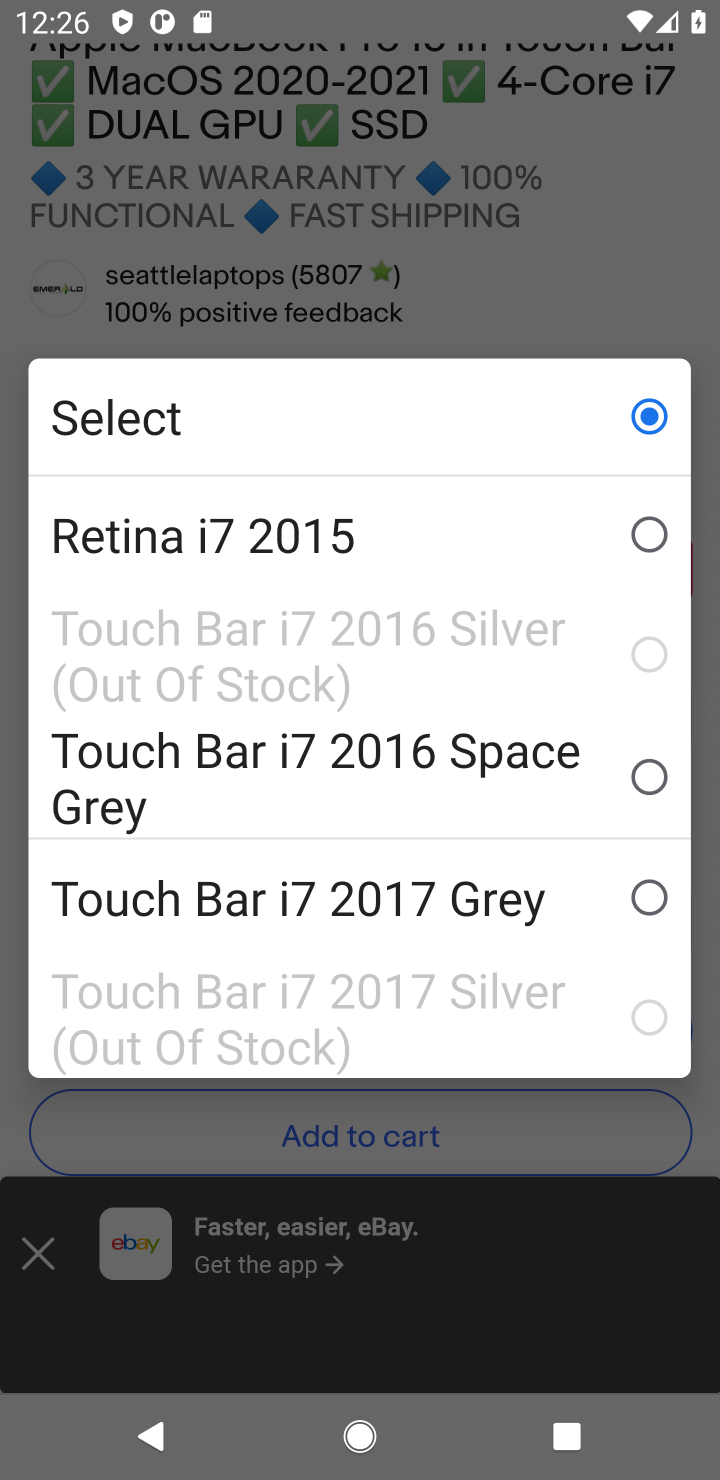
Step 32: click (644, 782)
Your task to perform on an android device: Search for macbook pro 15 inch on ebay, select the first entry, and add it to the cart. Image 33: 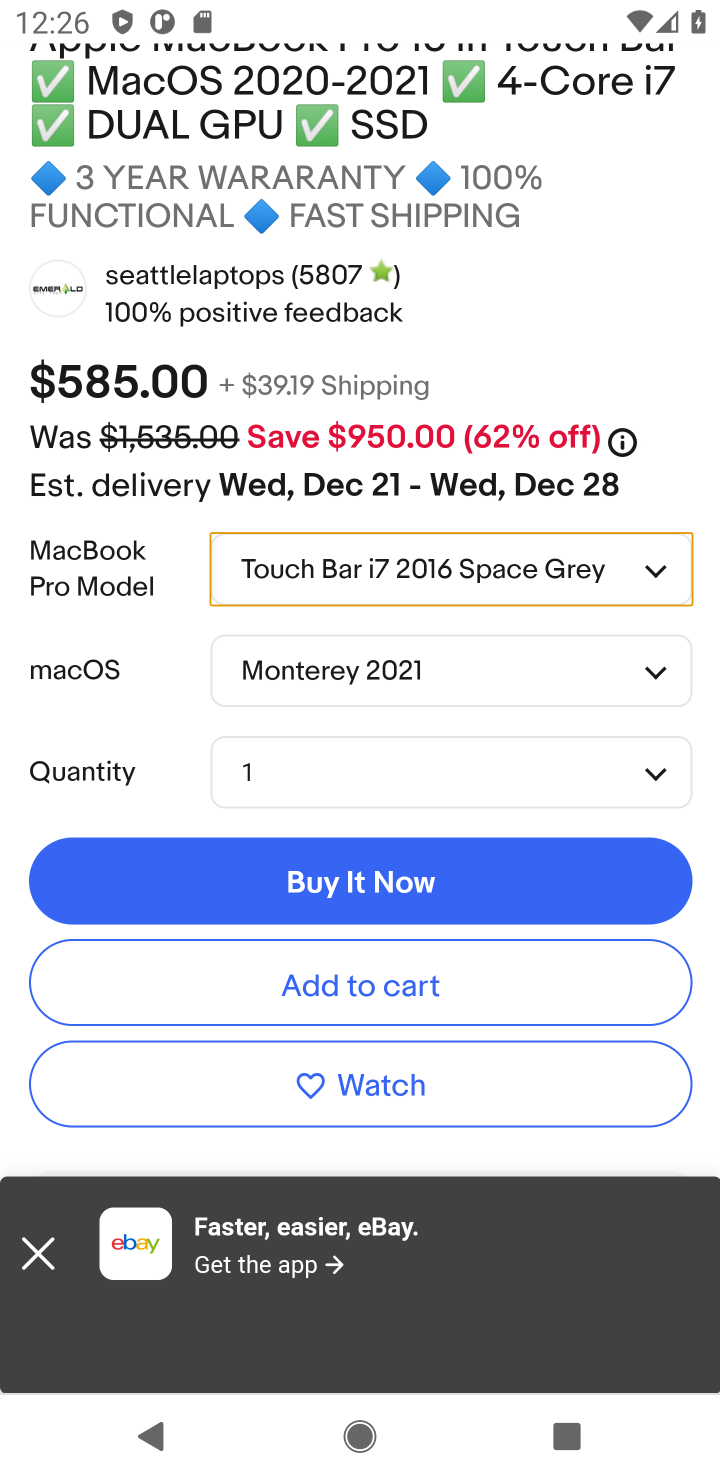
Step 33: click (391, 985)
Your task to perform on an android device: Search for macbook pro 15 inch on ebay, select the first entry, and add it to the cart. Image 34: 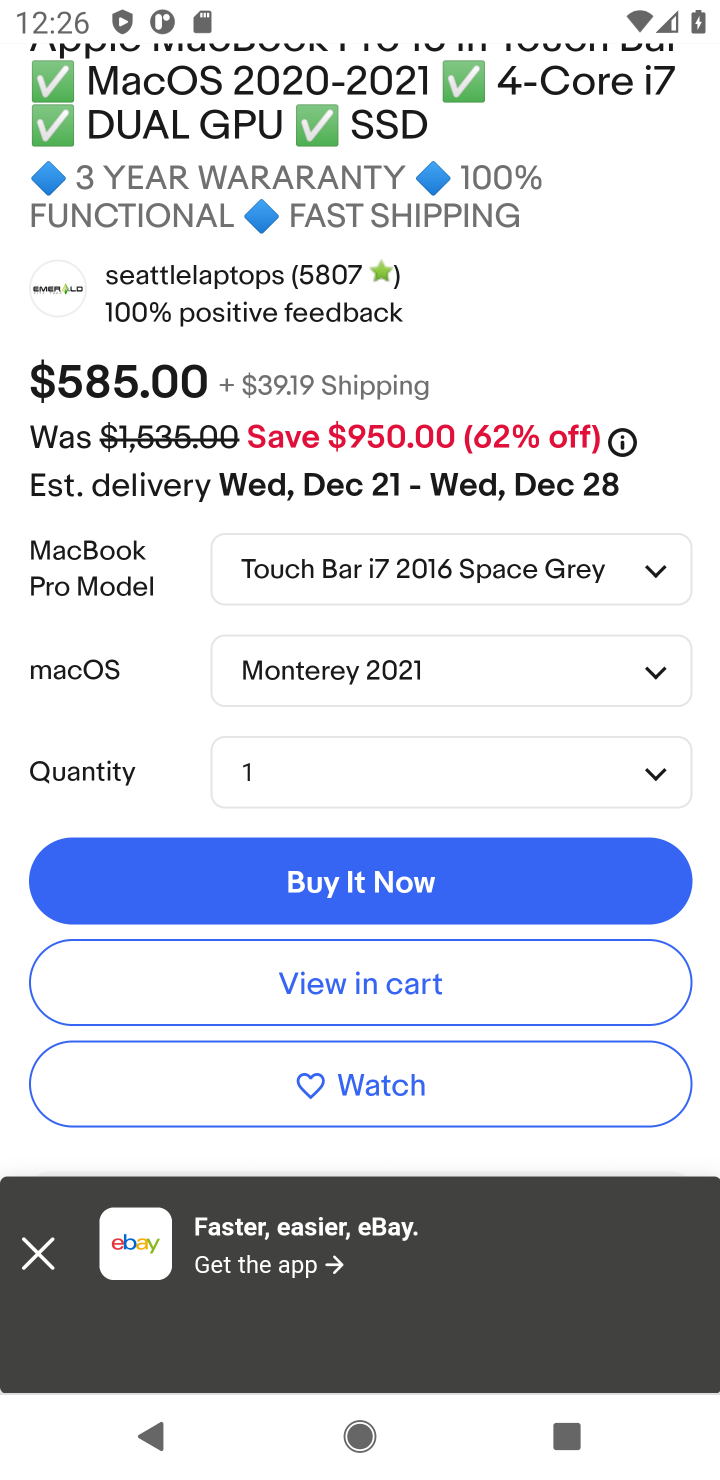
Step 34: task complete